Your task to perform on an android device: turn notification dots on Image 0: 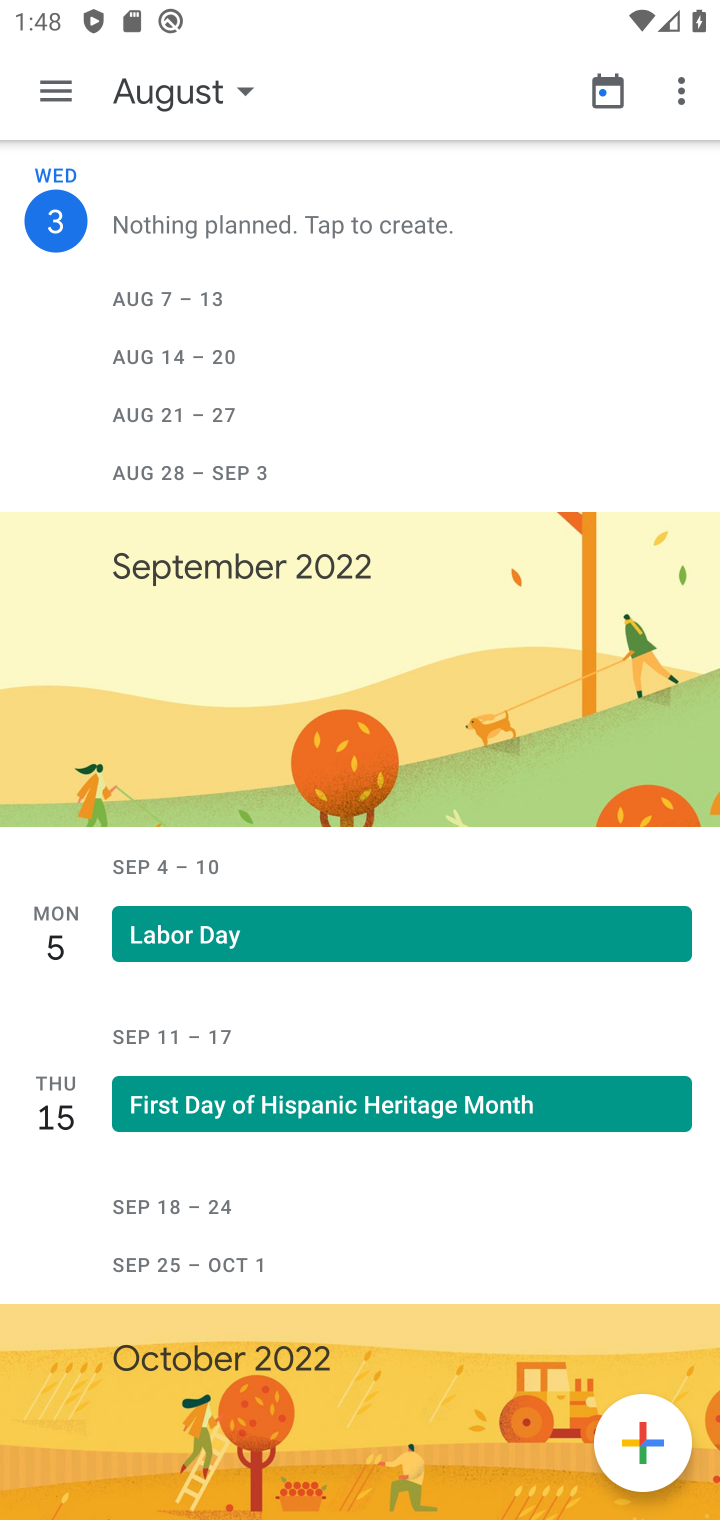
Step 0: press back button
Your task to perform on an android device: turn notification dots on Image 1: 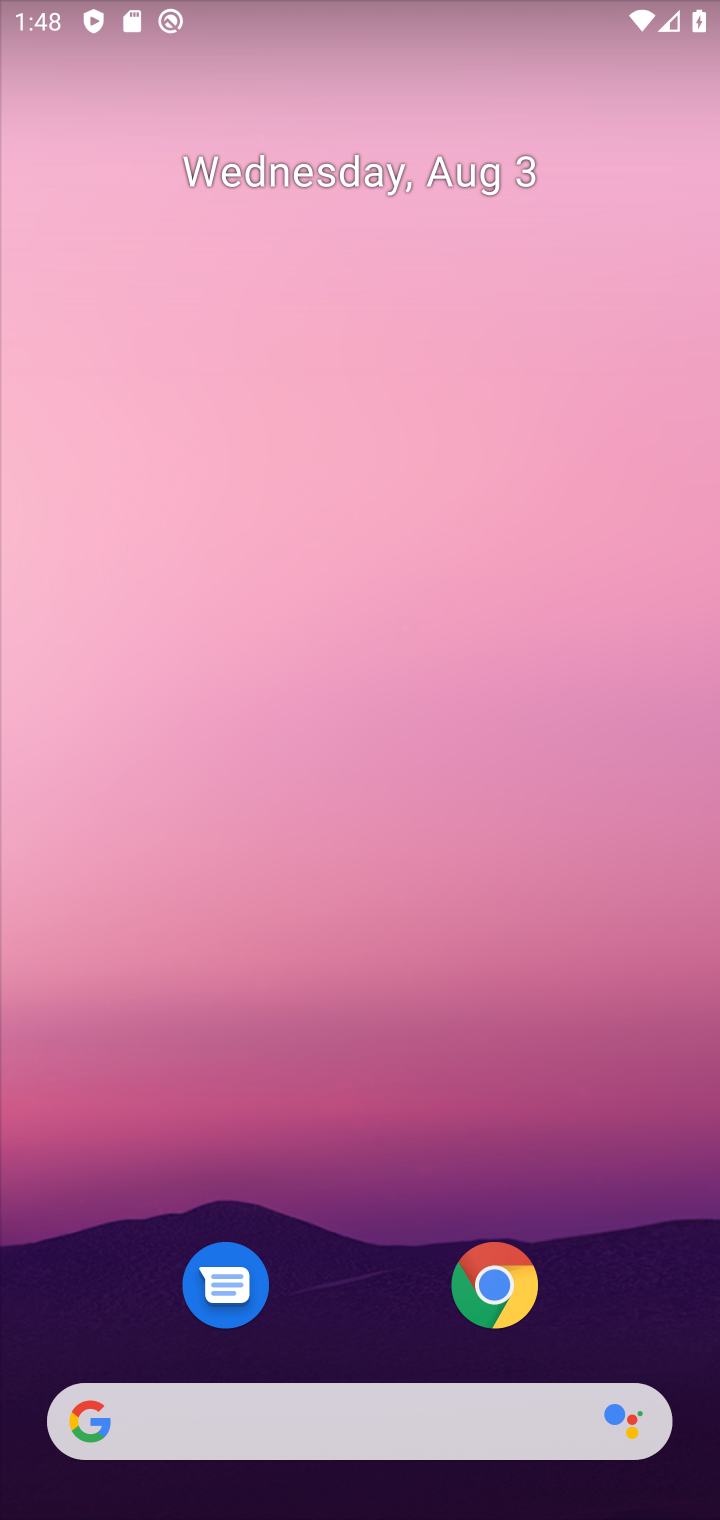
Step 1: drag from (331, 1350) to (419, 537)
Your task to perform on an android device: turn notification dots on Image 2: 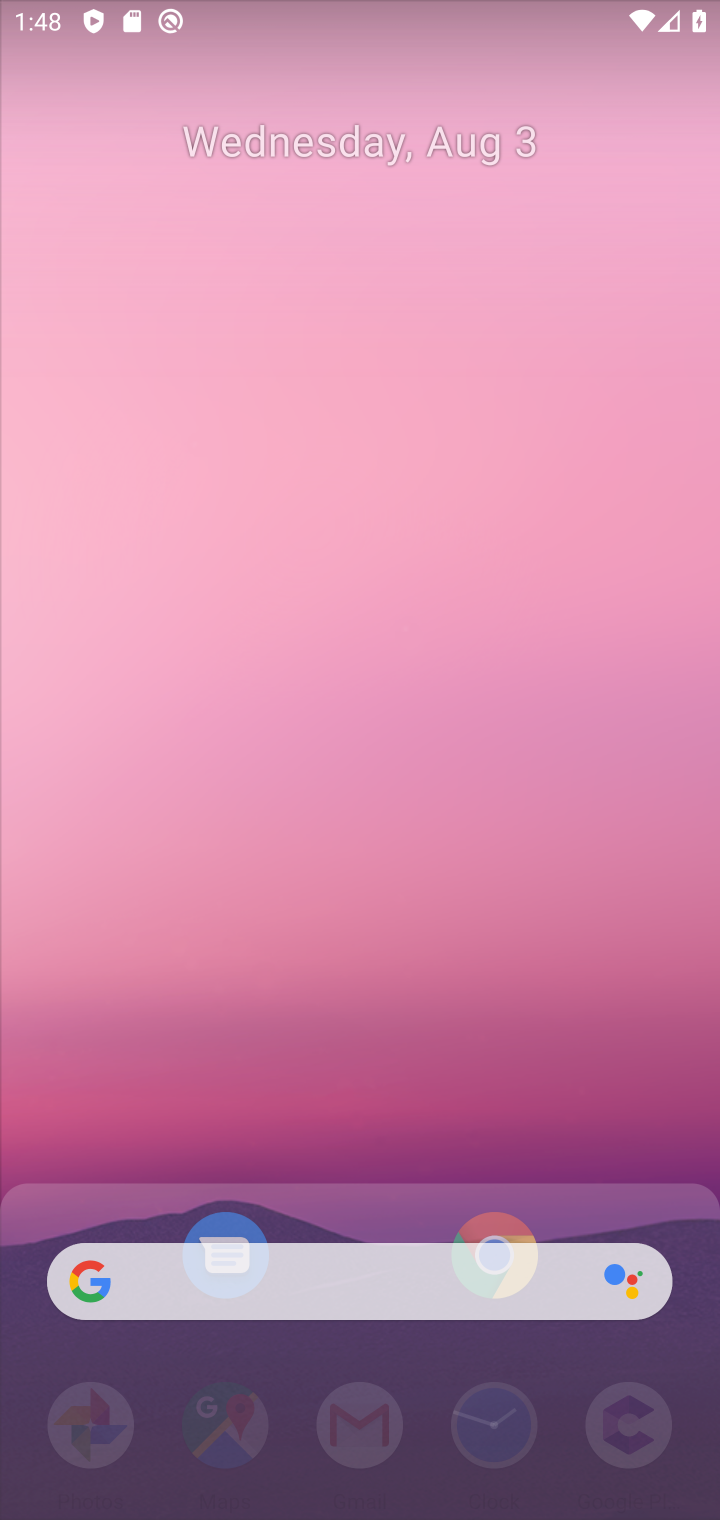
Step 2: click (331, 232)
Your task to perform on an android device: turn notification dots on Image 3: 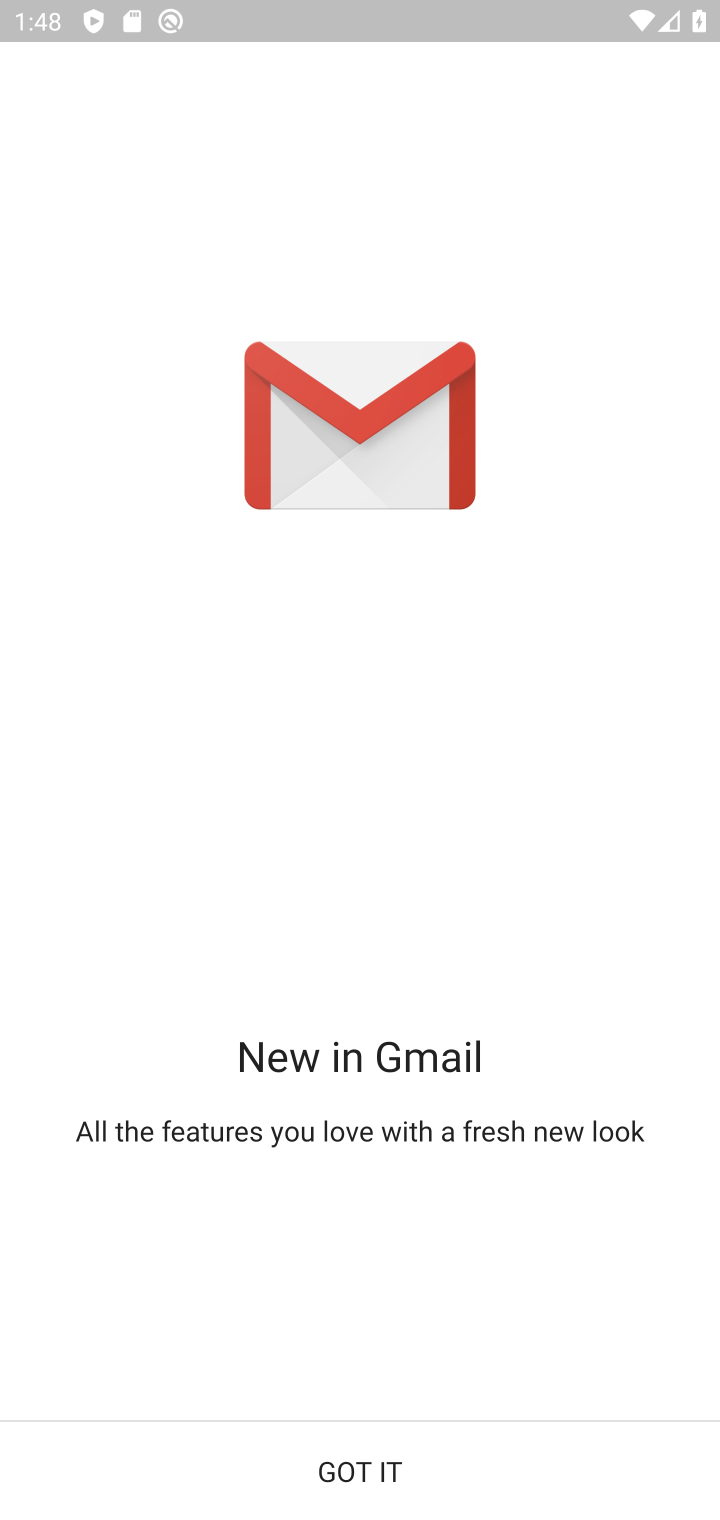
Step 3: press back button
Your task to perform on an android device: turn notification dots on Image 4: 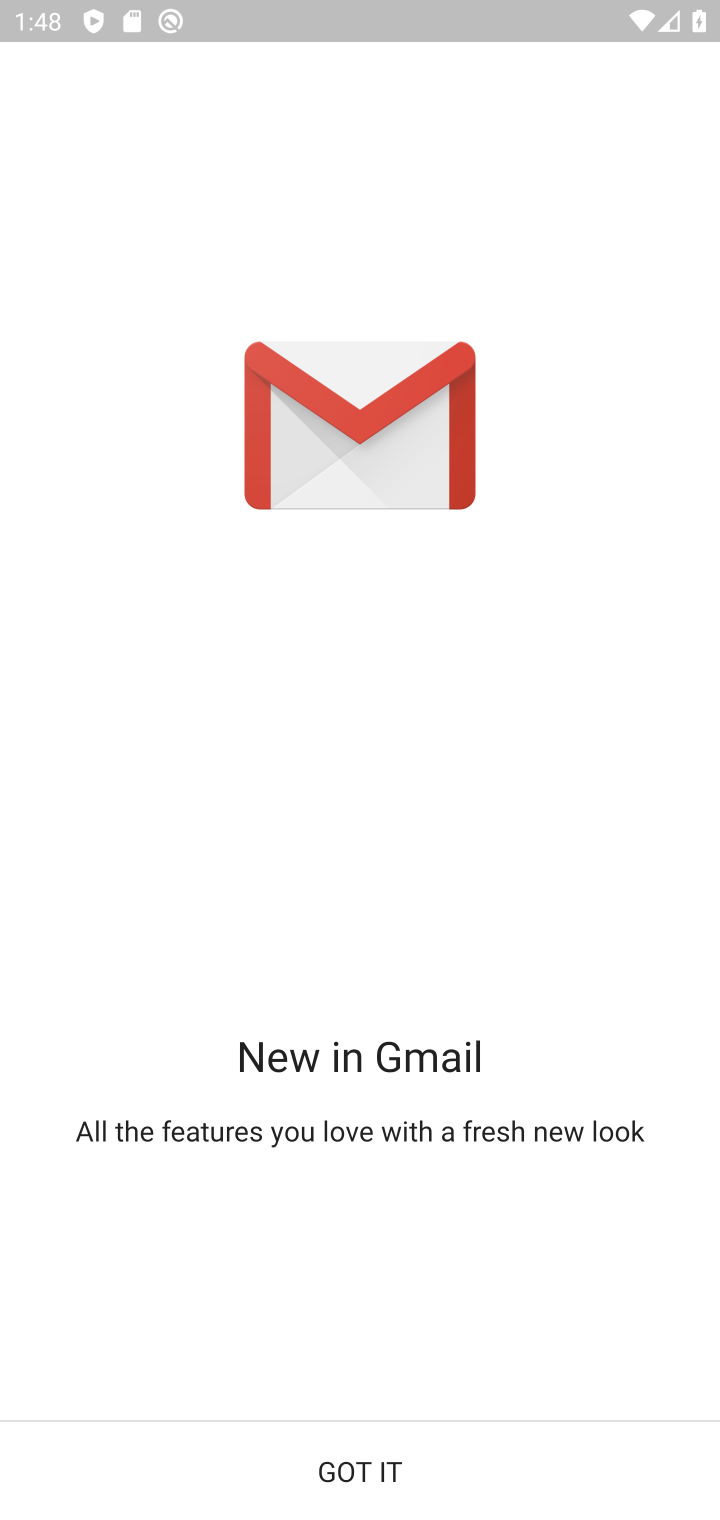
Step 4: press back button
Your task to perform on an android device: turn notification dots on Image 5: 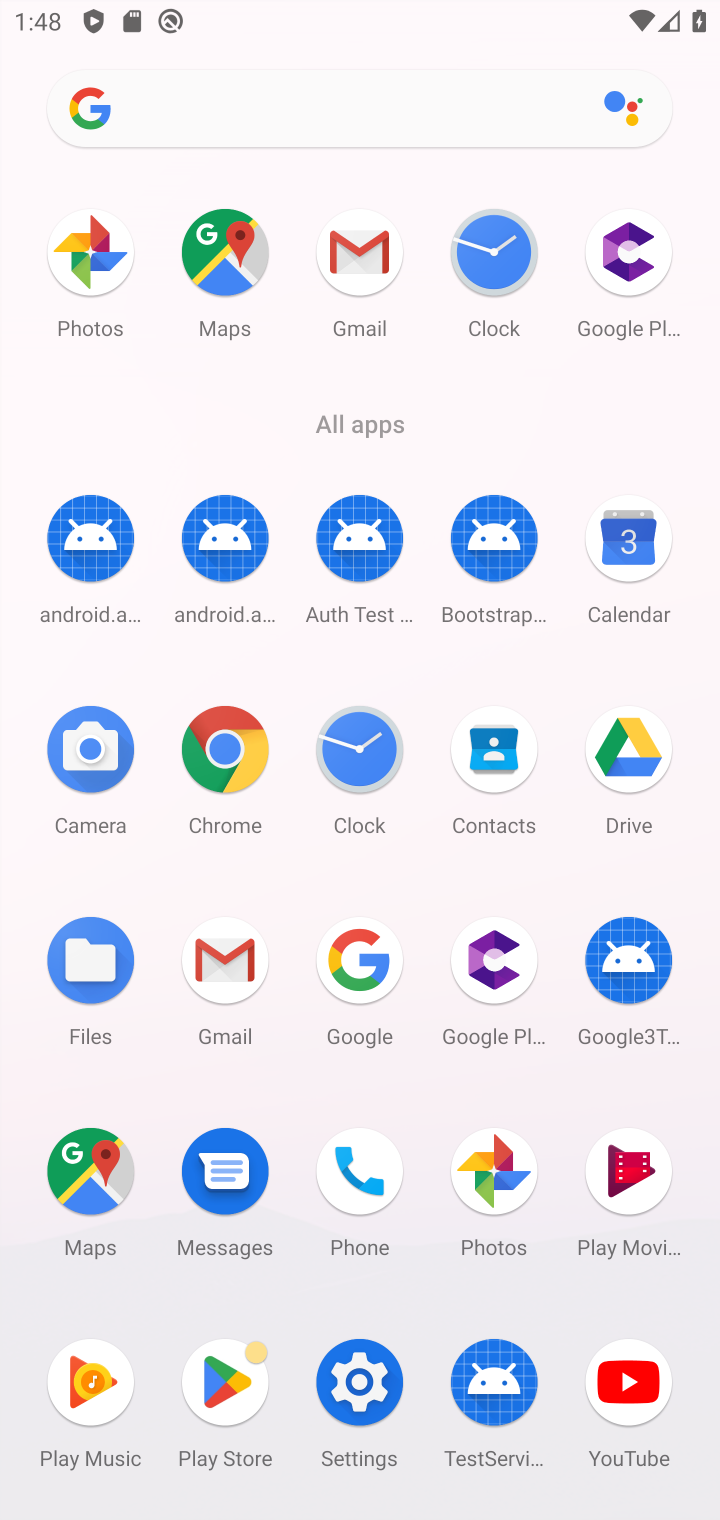
Step 5: press back button
Your task to perform on an android device: turn notification dots on Image 6: 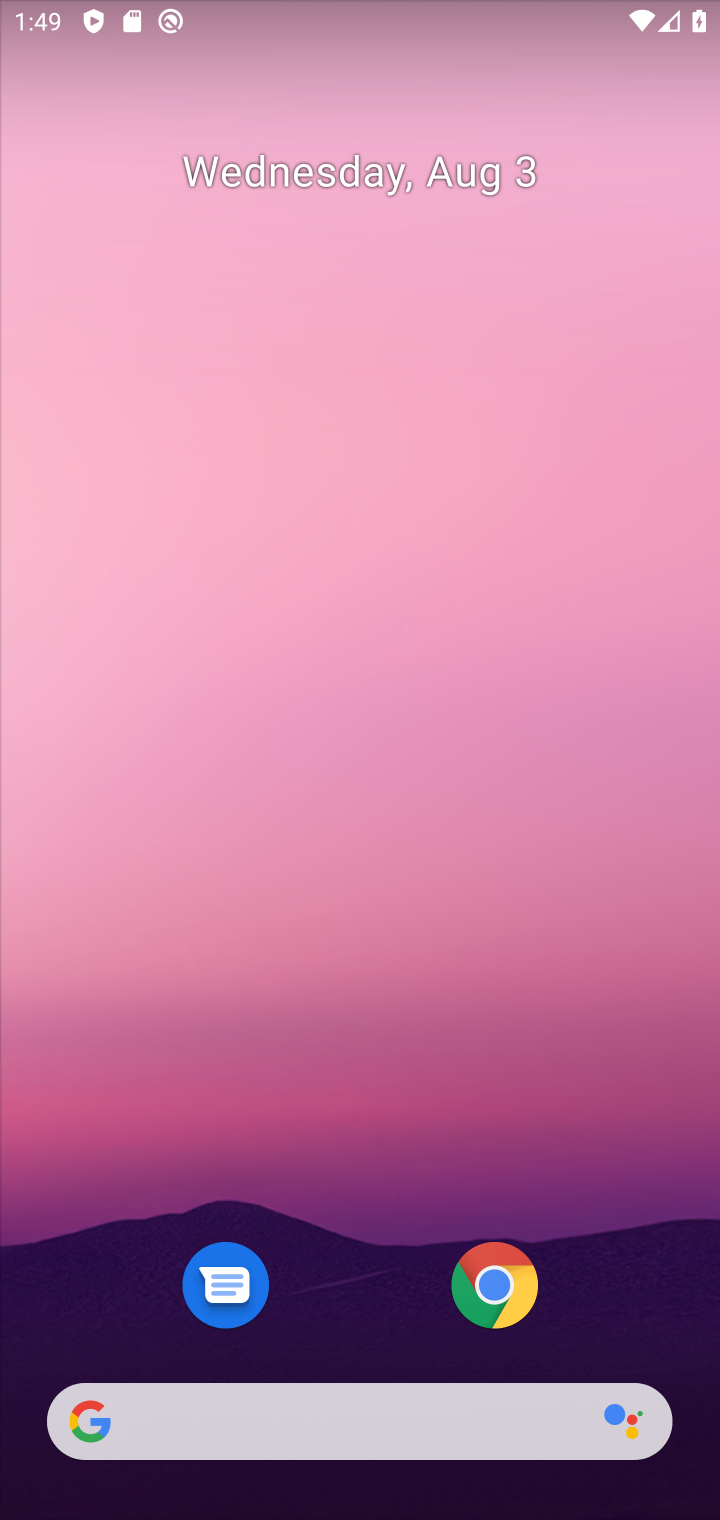
Step 6: press back button
Your task to perform on an android device: turn notification dots on Image 7: 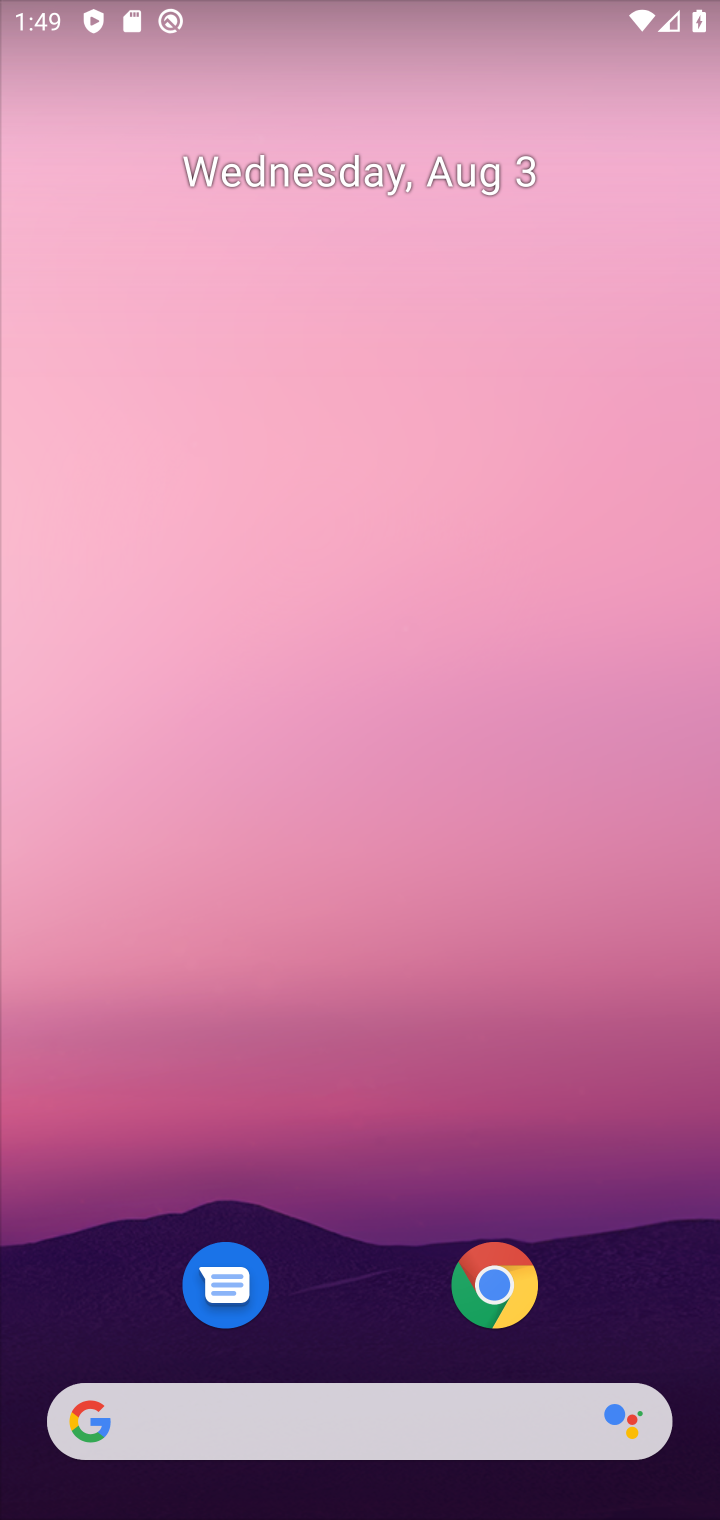
Step 7: drag from (408, 1365) to (306, 525)
Your task to perform on an android device: turn notification dots on Image 8: 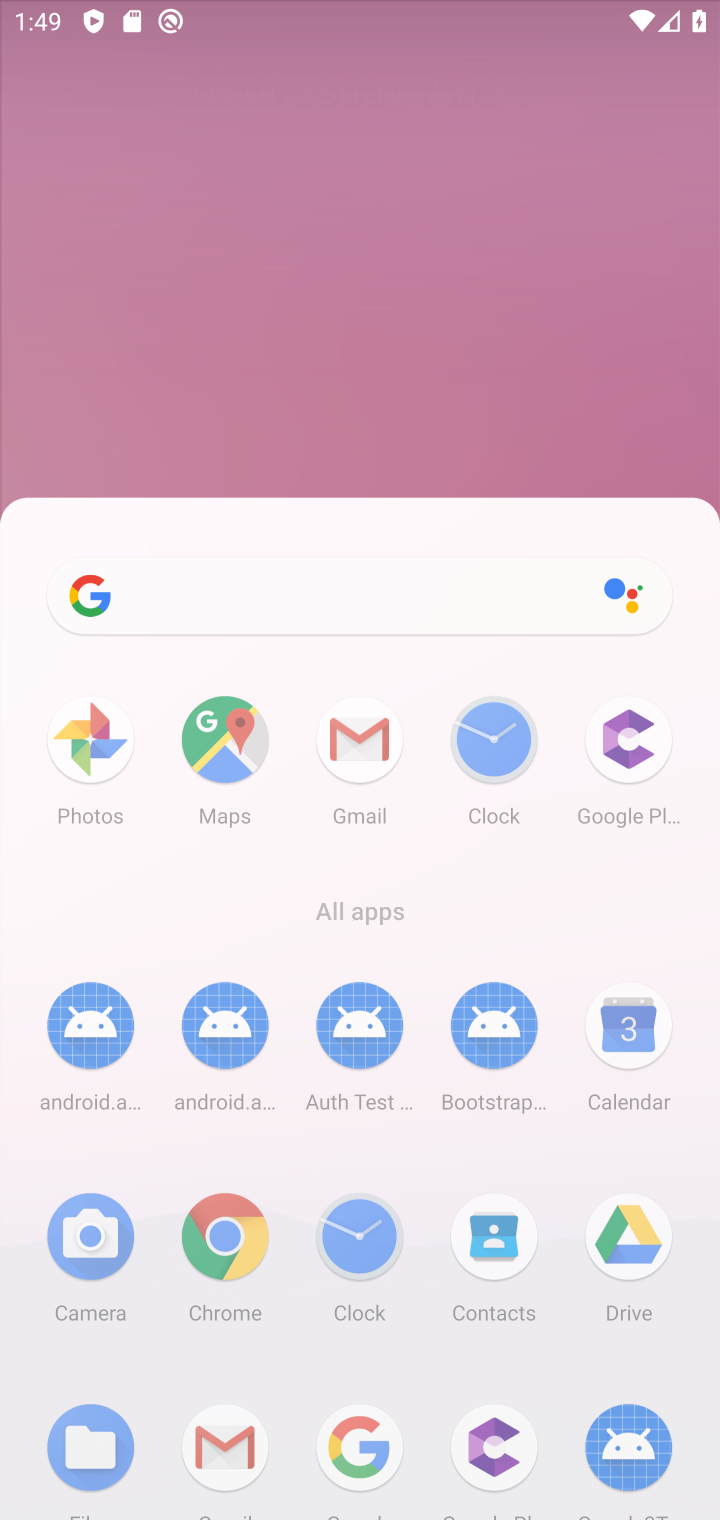
Step 8: drag from (353, 1327) to (210, 226)
Your task to perform on an android device: turn notification dots on Image 9: 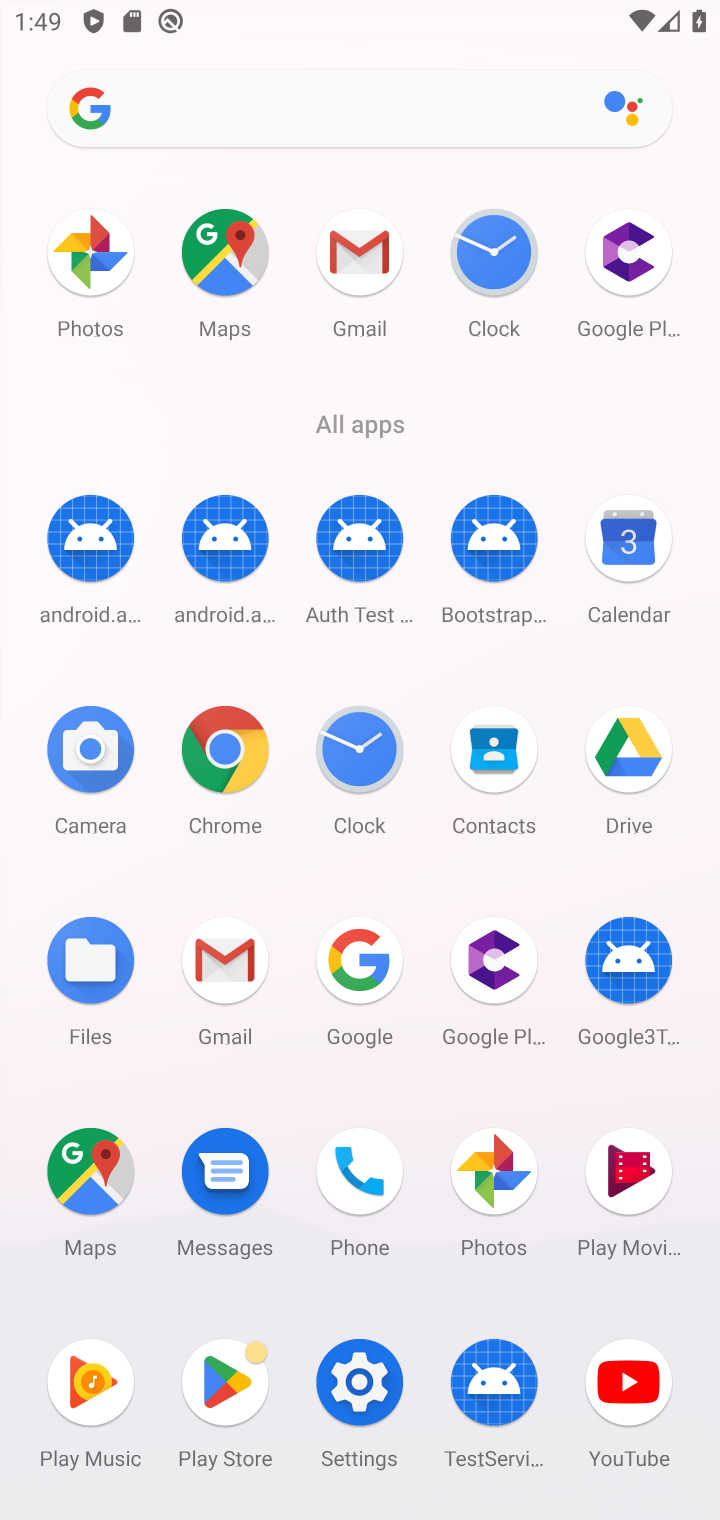
Step 9: drag from (281, 414) to (267, 210)
Your task to perform on an android device: turn notification dots on Image 10: 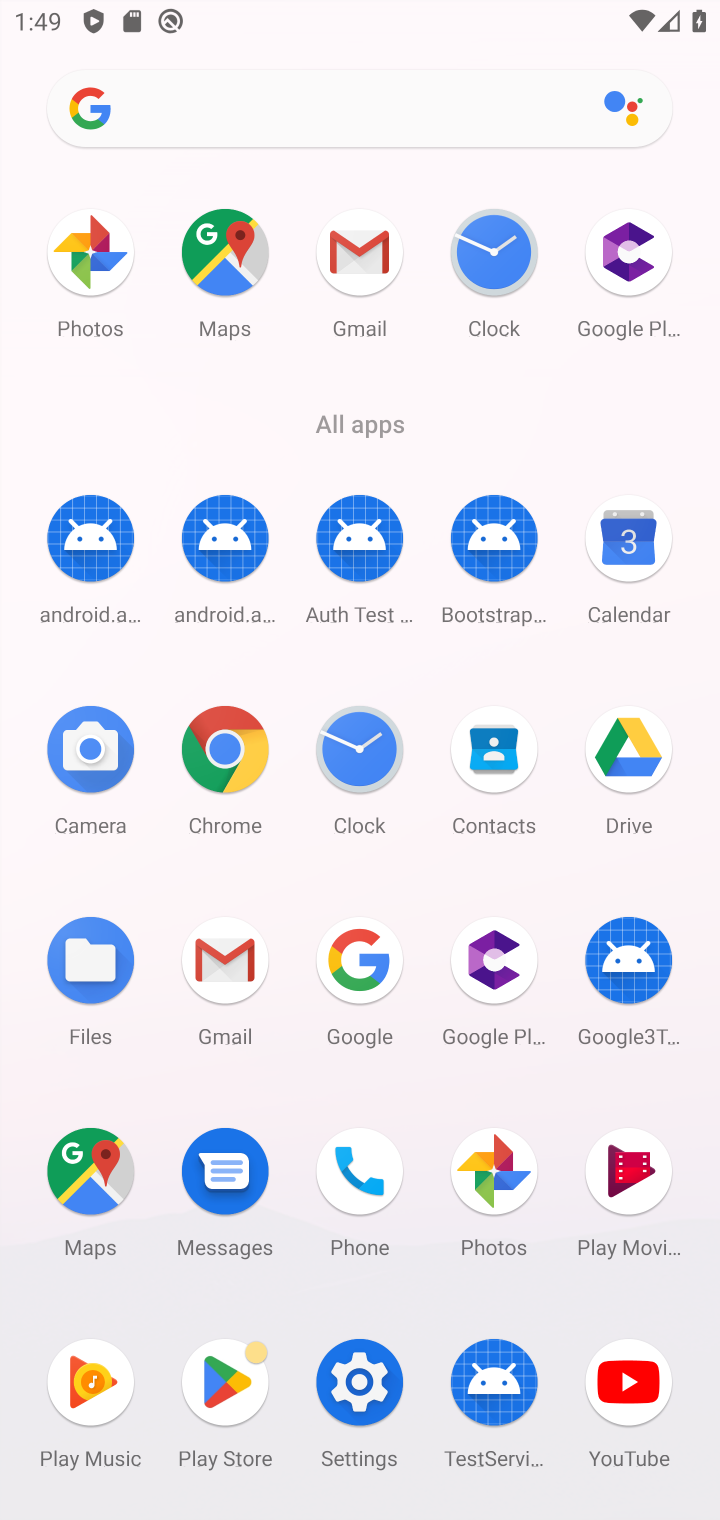
Step 10: click (351, 1380)
Your task to perform on an android device: turn notification dots on Image 11: 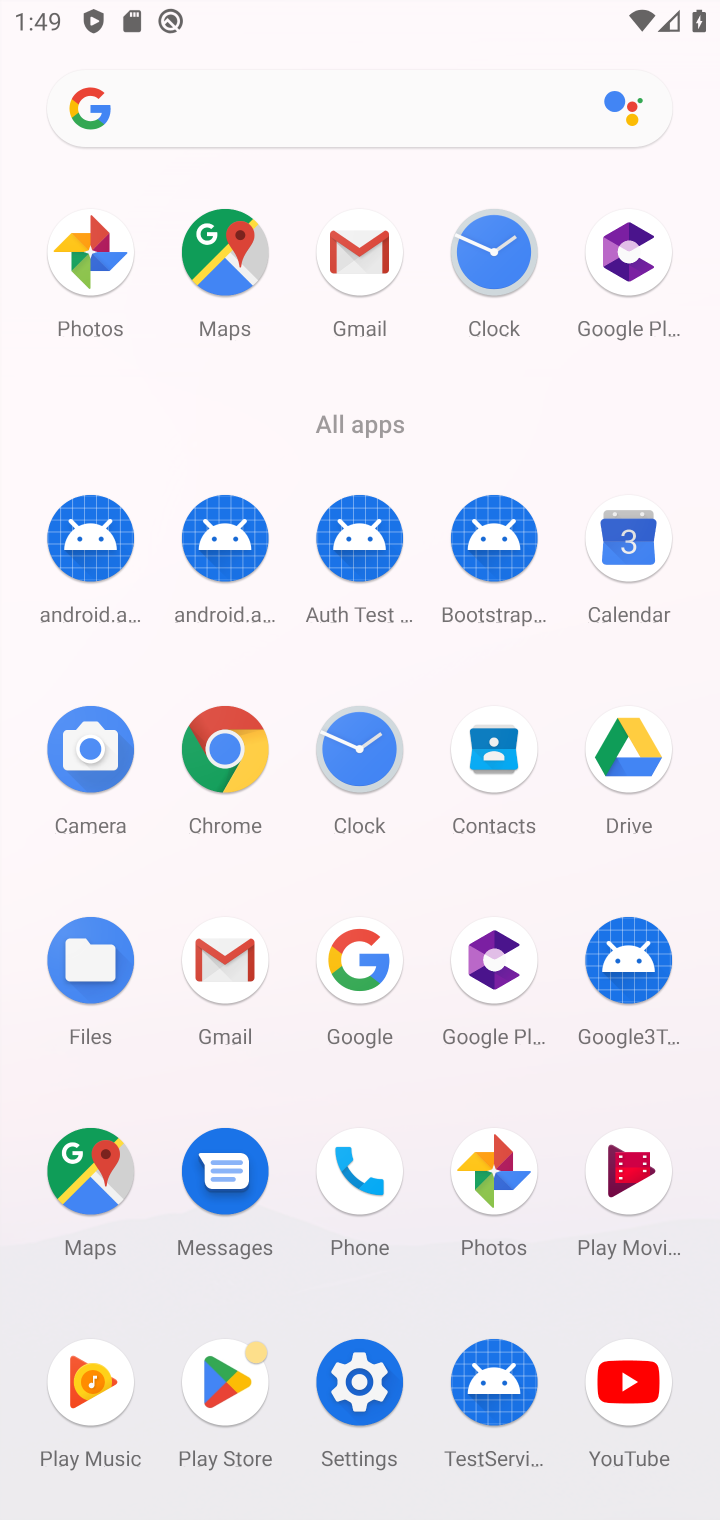
Step 11: click (349, 1388)
Your task to perform on an android device: turn notification dots on Image 12: 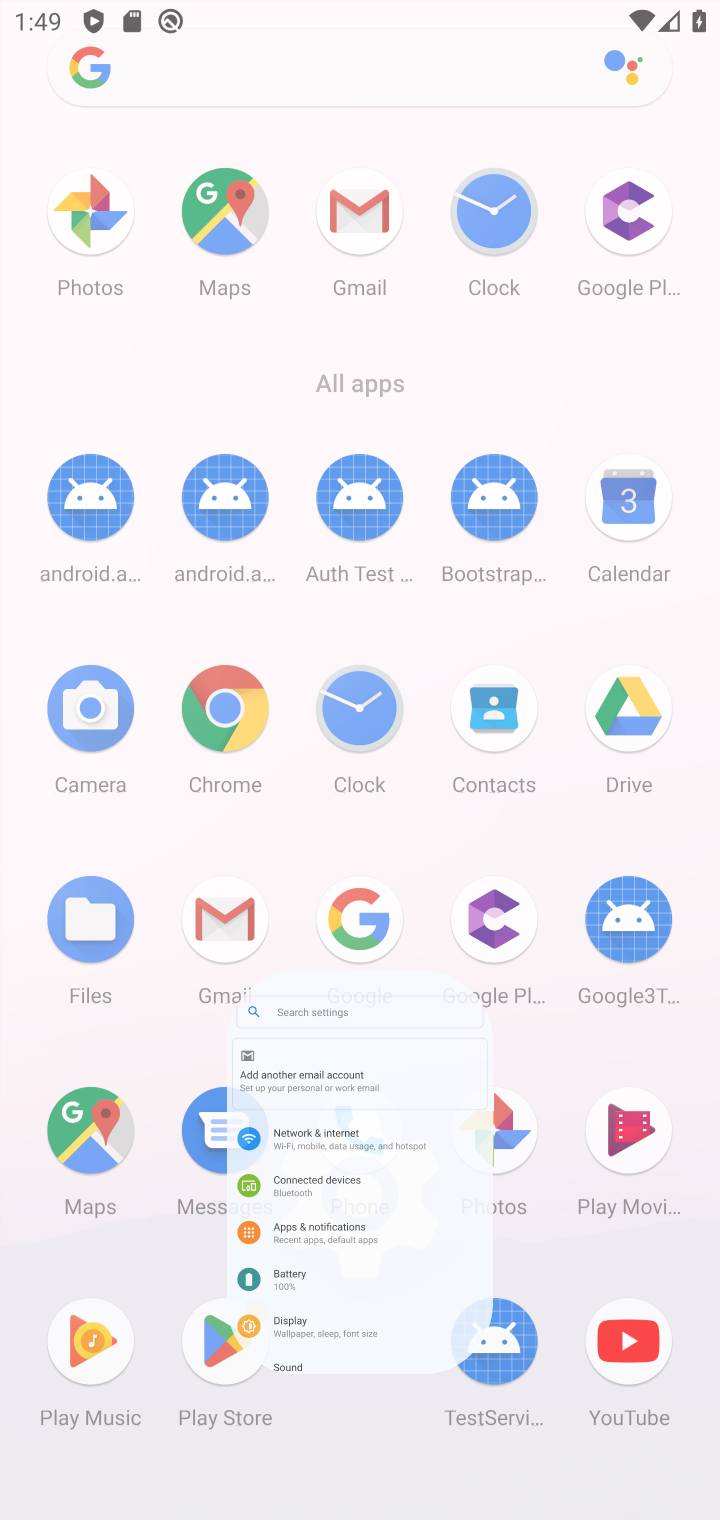
Step 12: click (356, 1387)
Your task to perform on an android device: turn notification dots on Image 13: 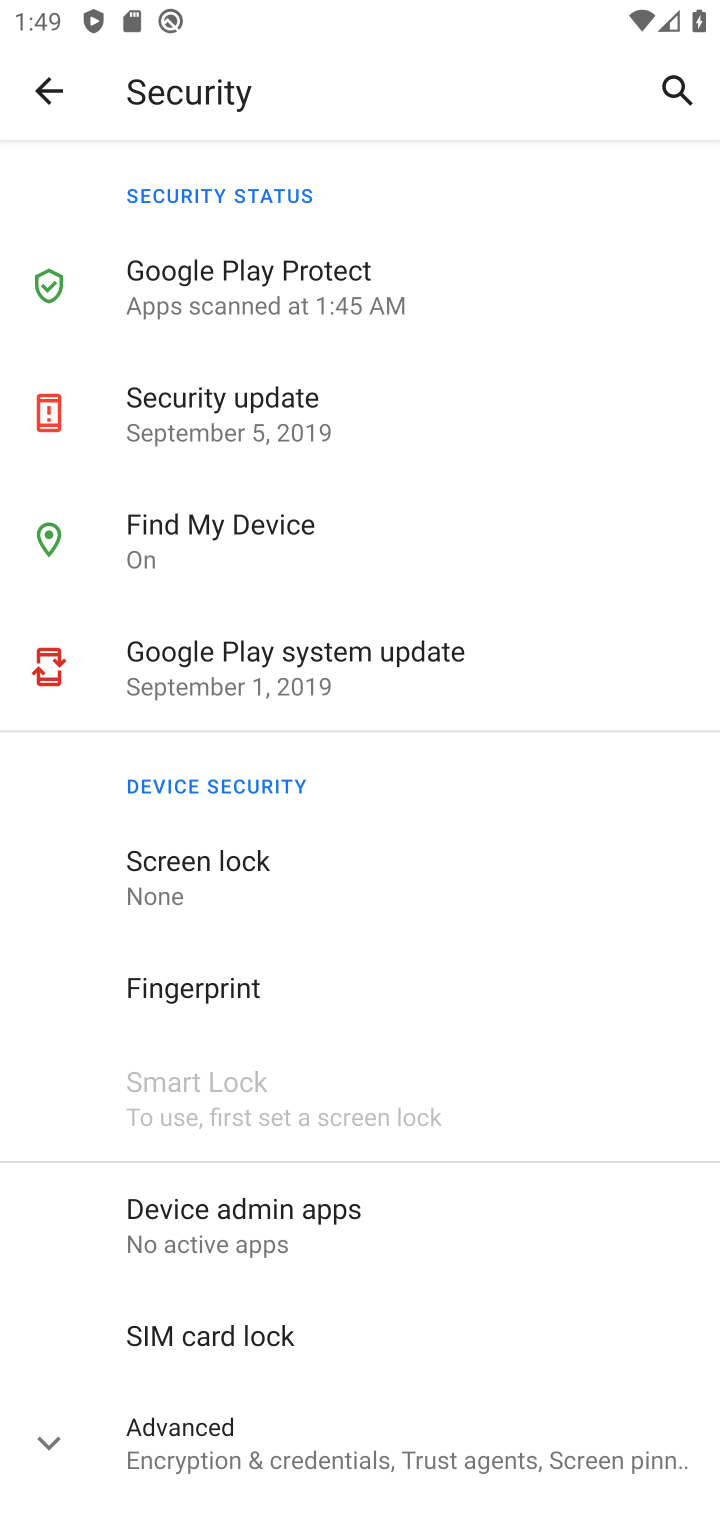
Step 13: click (43, 94)
Your task to perform on an android device: turn notification dots on Image 14: 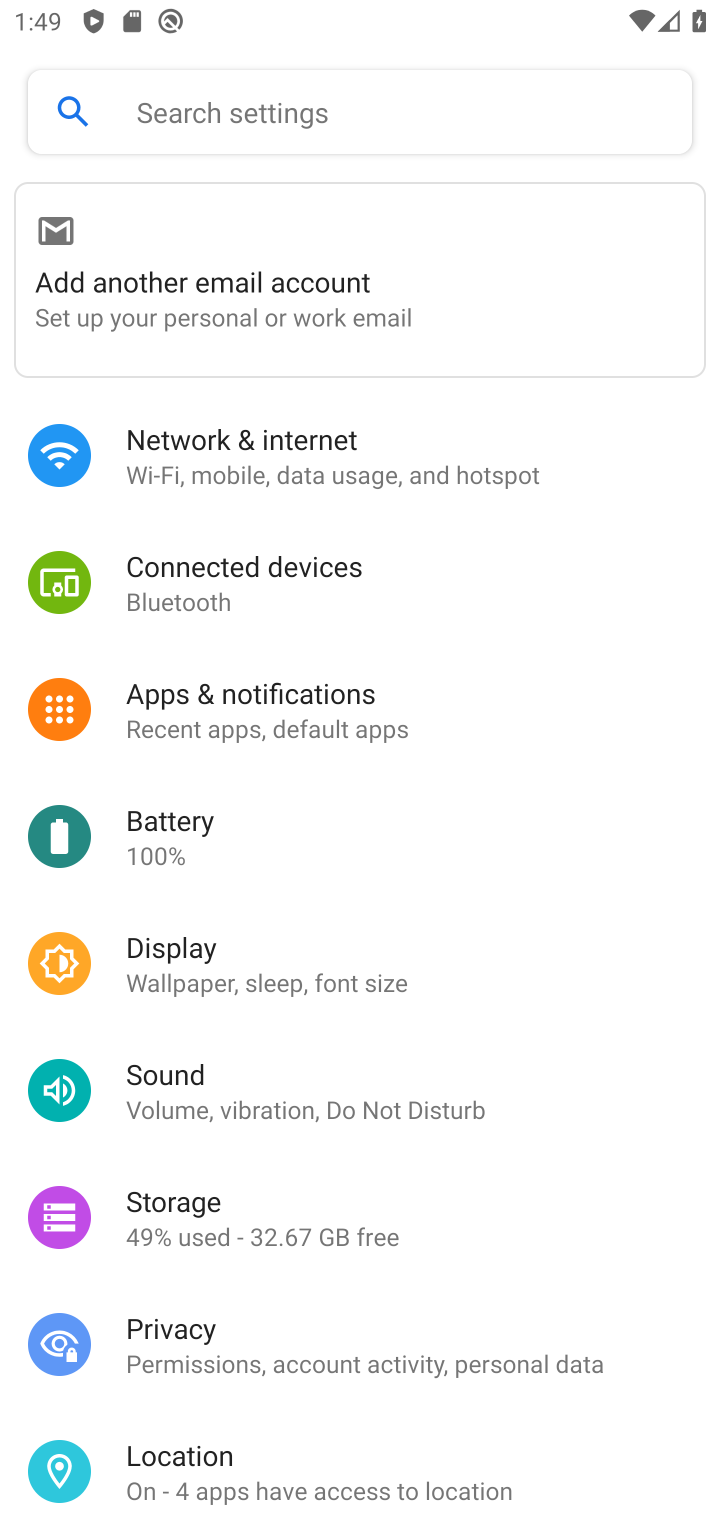
Step 14: drag from (221, 1199) to (138, 658)
Your task to perform on an android device: turn notification dots on Image 15: 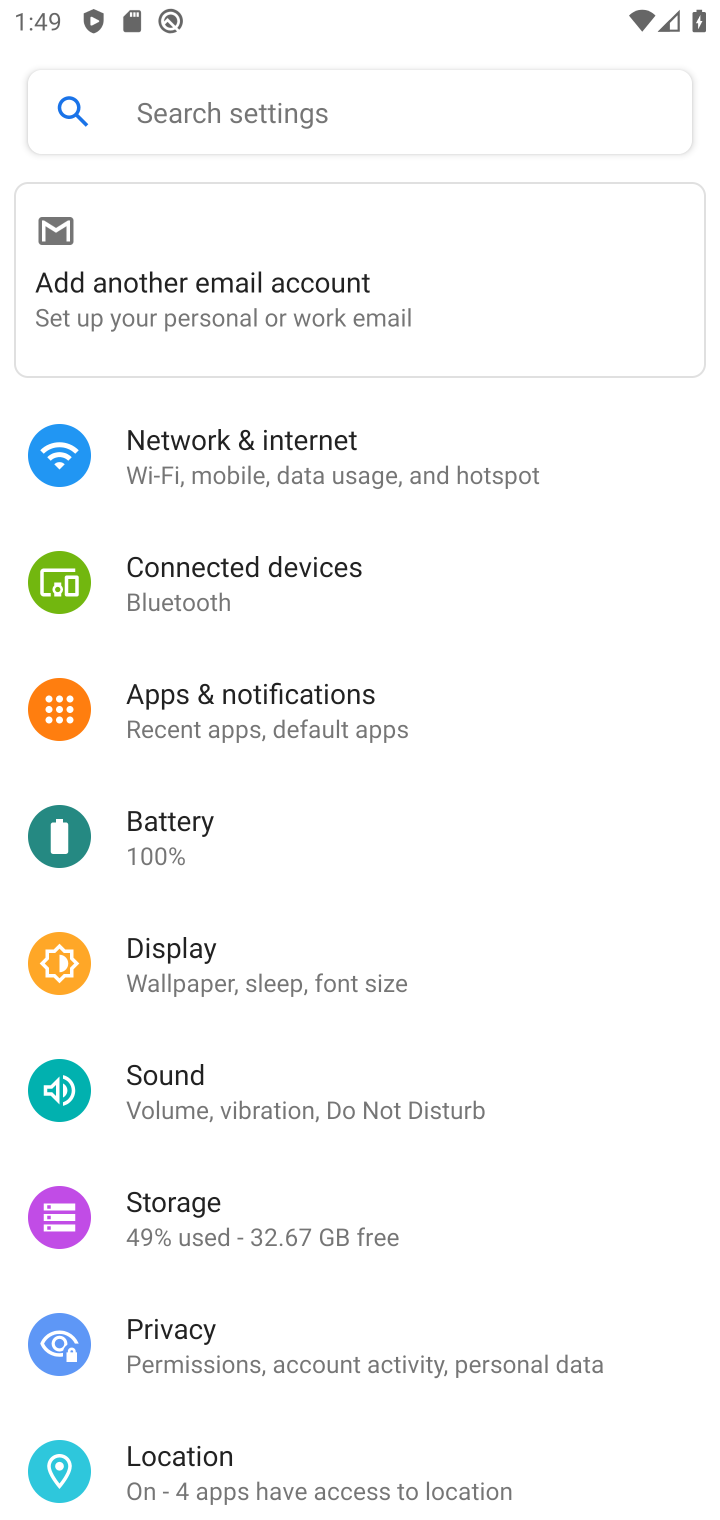
Step 15: drag from (260, 1015) to (422, 188)
Your task to perform on an android device: turn notification dots on Image 16: 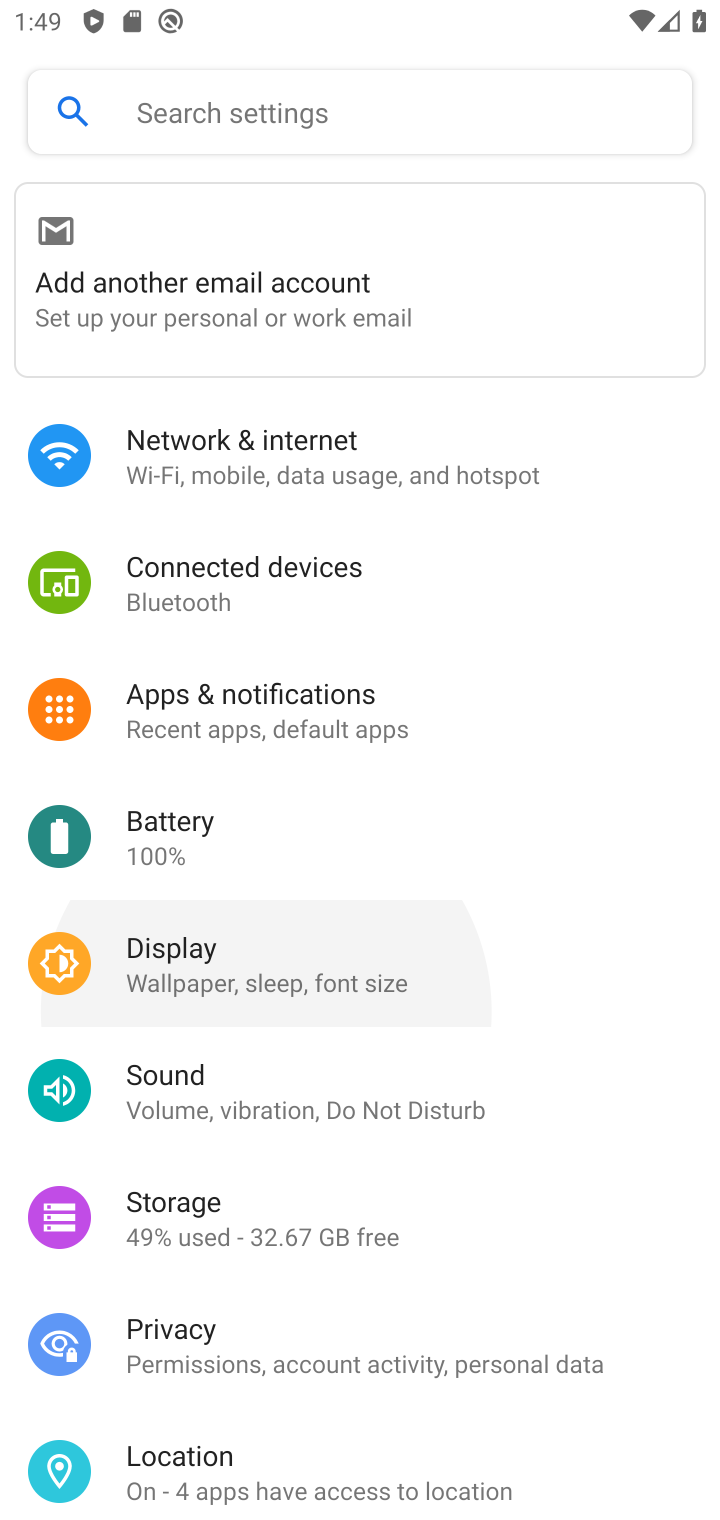
Step 16: drag from (390, 898) to (278, 506)
Your task to perform on an android device: turn notification dots on Image 17: 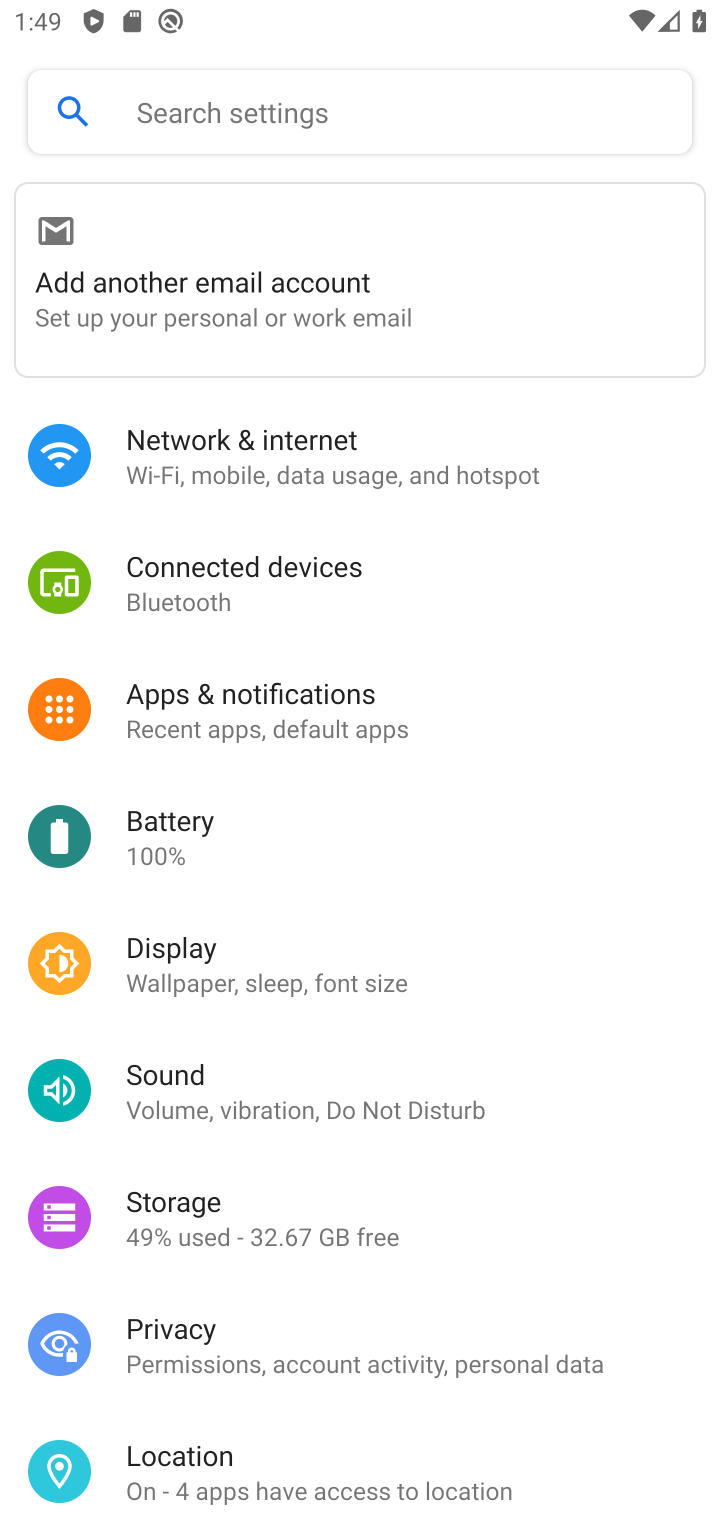
Step 17: click (146, 223)
Your task to perform on an android device: turn notification dots on Image 18: 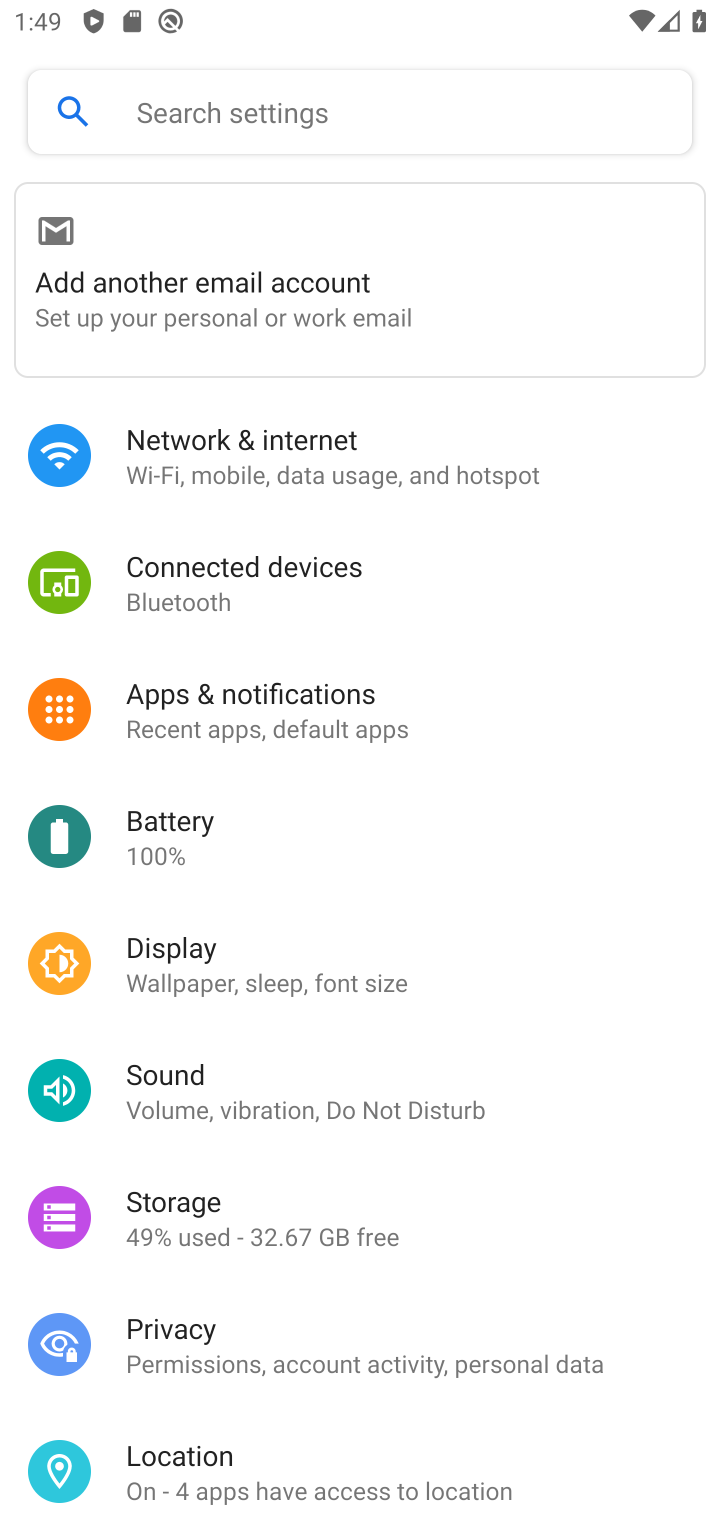
Step 18: click (120, 743)
Your task to perform on an android device: turn notification dots on Image 19: 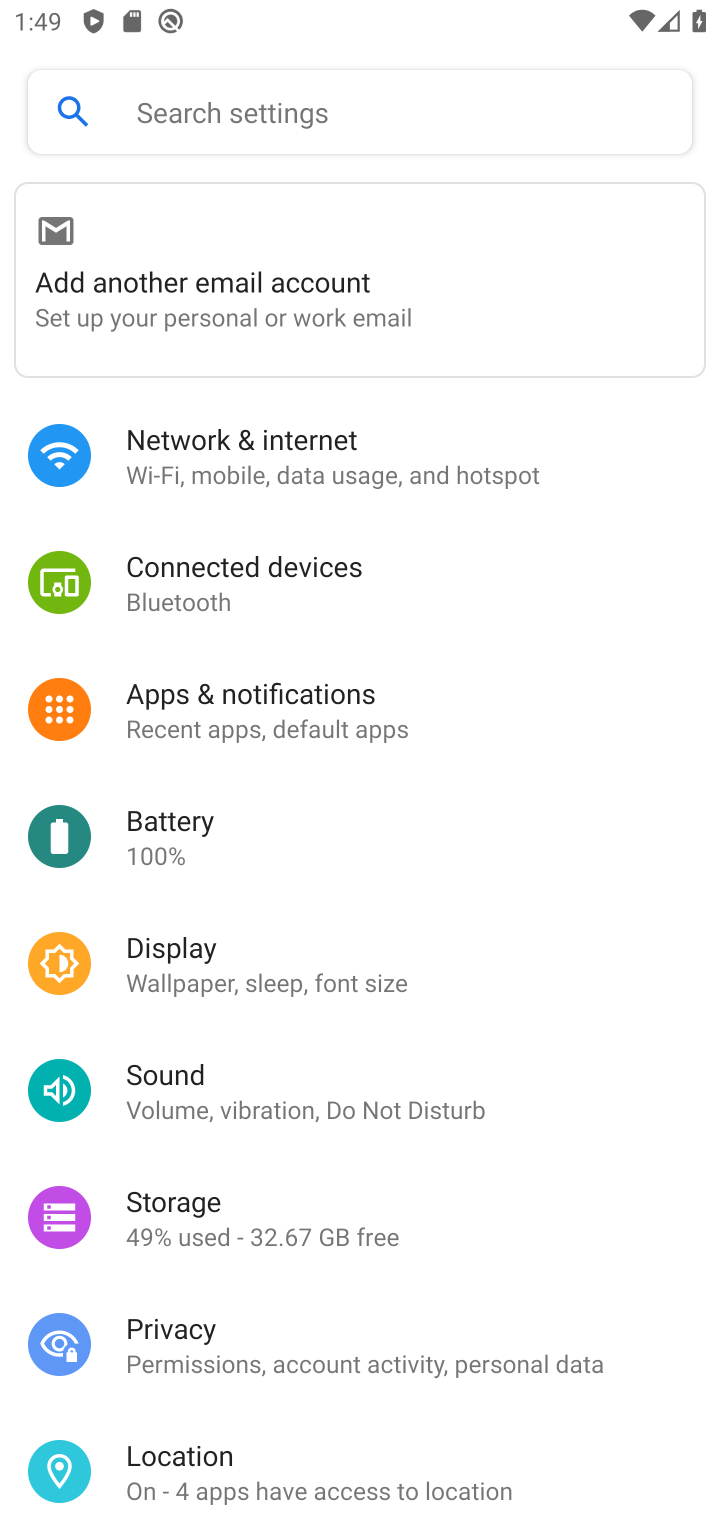
Step 19: drag from (192, 1146) to (0, 341)
Your task to perform on an android device: turn notification dots on Image 20: 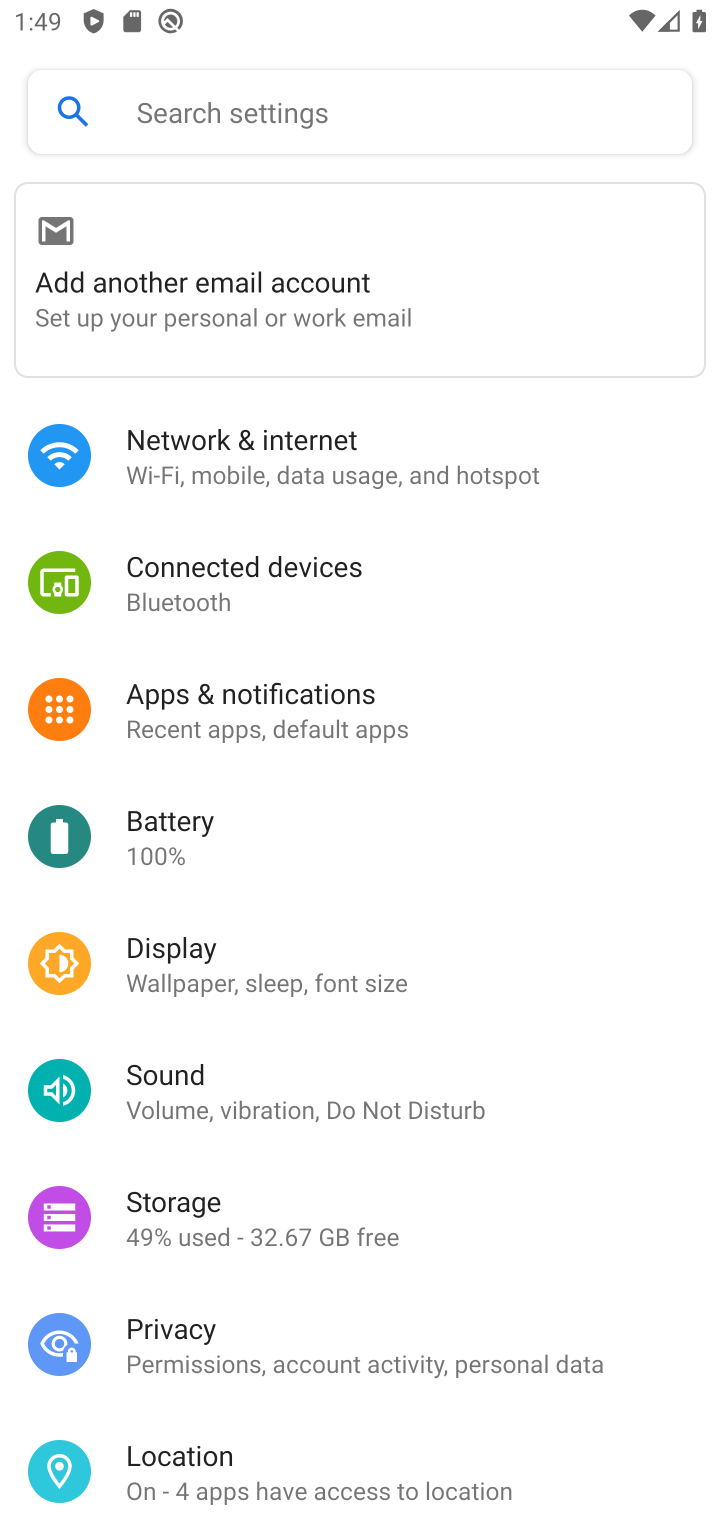
Step 20: drag from (219, 1244) to (132, 607)
Your task to perform on an android device: turn notification dots on Image 21: 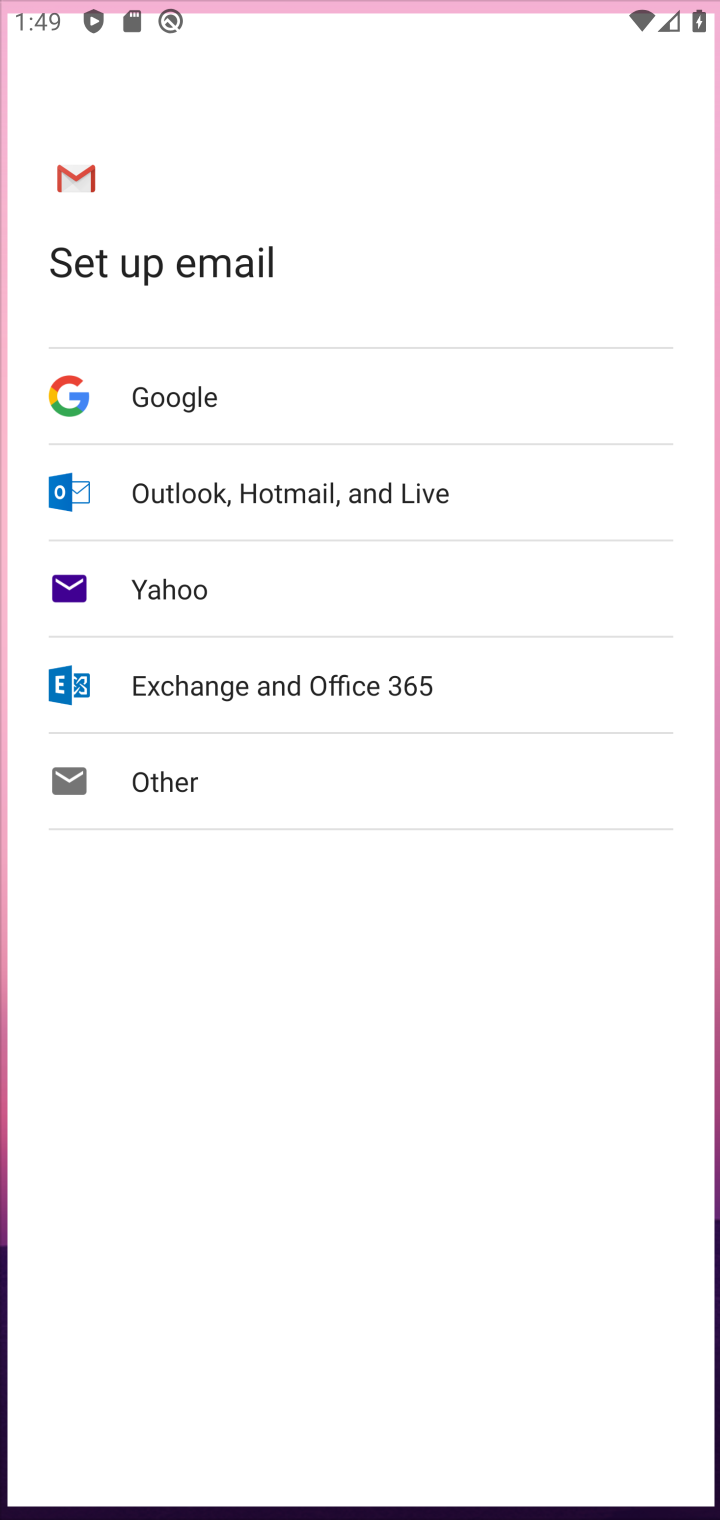
Step 21: drag from (227, 480) to (206, 355)
Your task to perform on an android device: turn notification dots on Image 22: 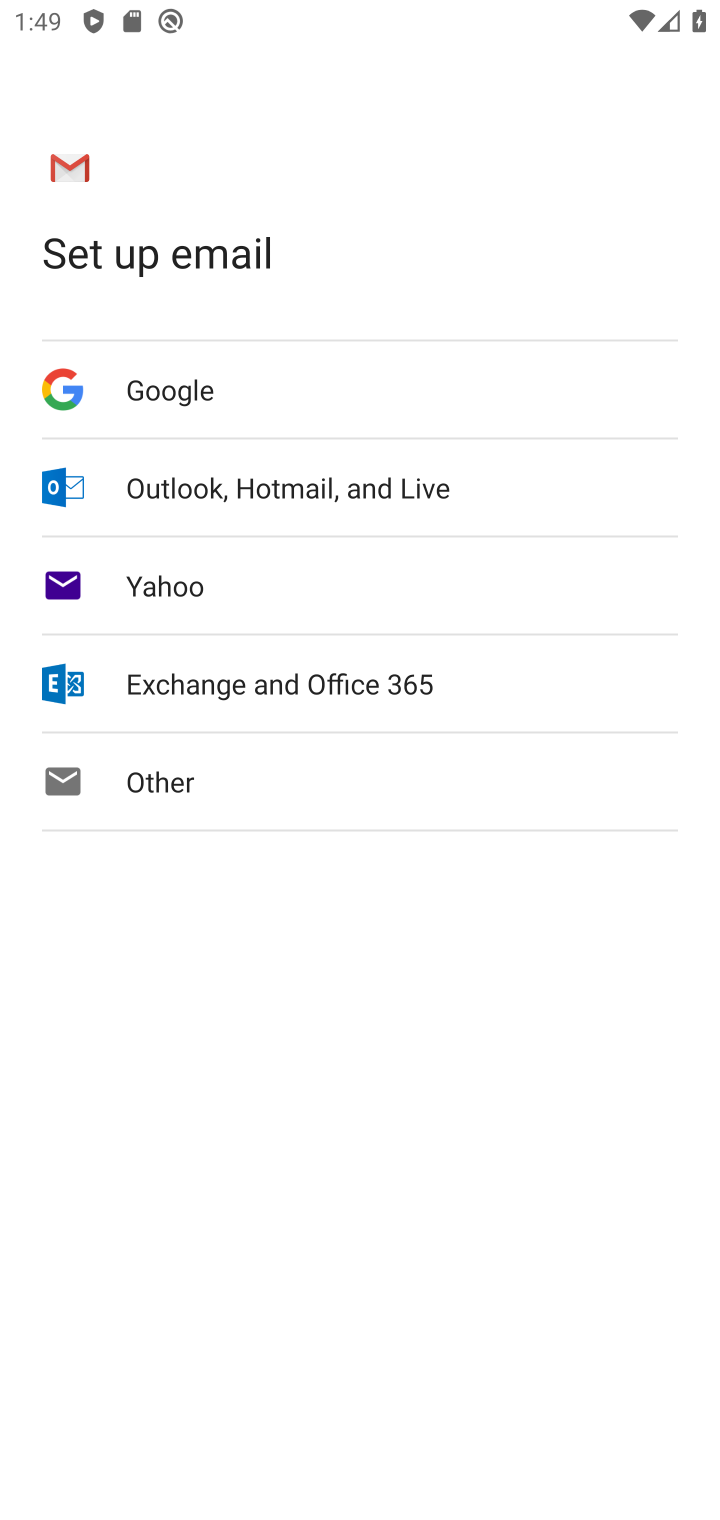
Step 22: press back button
Your task to perform on an android device: turn notification dots on Image 23: 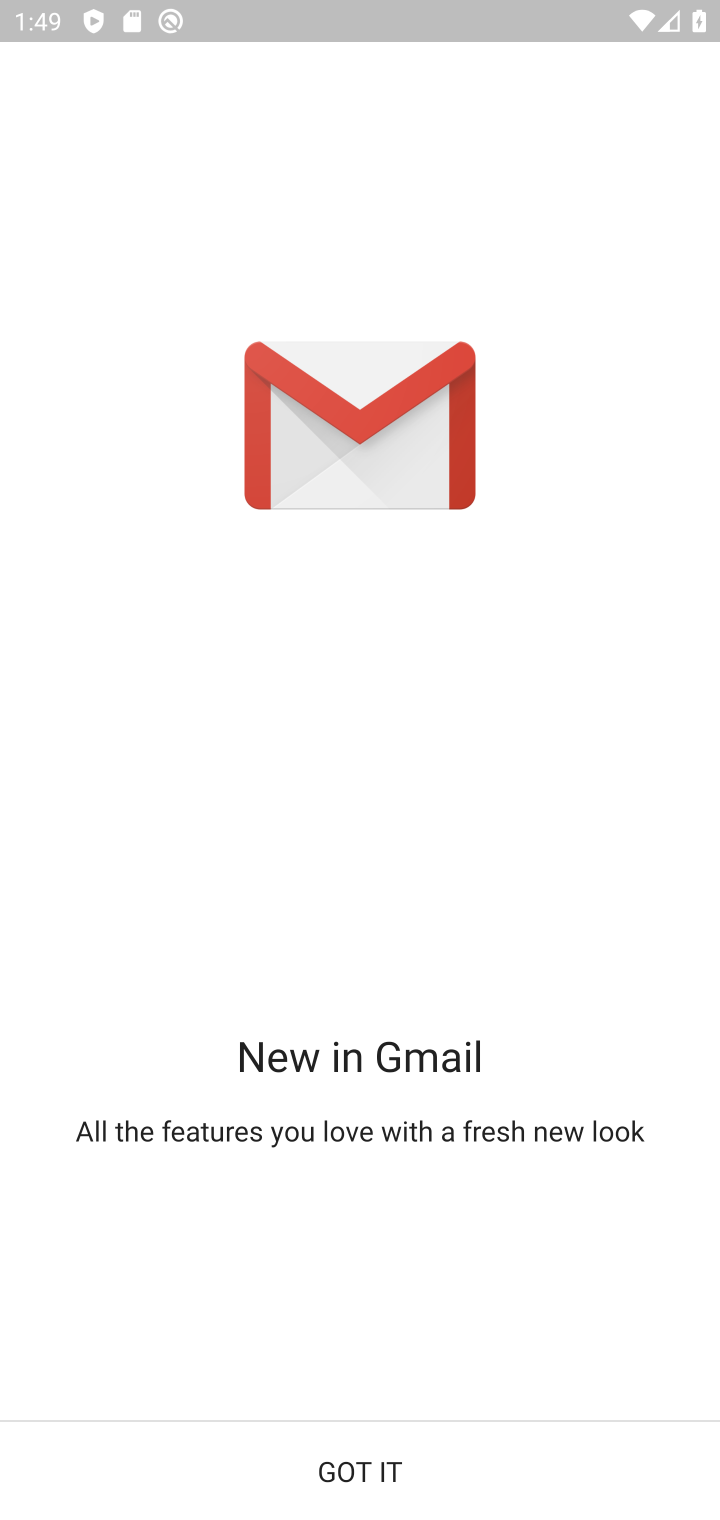
Step 23: click (337, 1484)
Your task to perform on an android device: turn notification dots on Image 24: 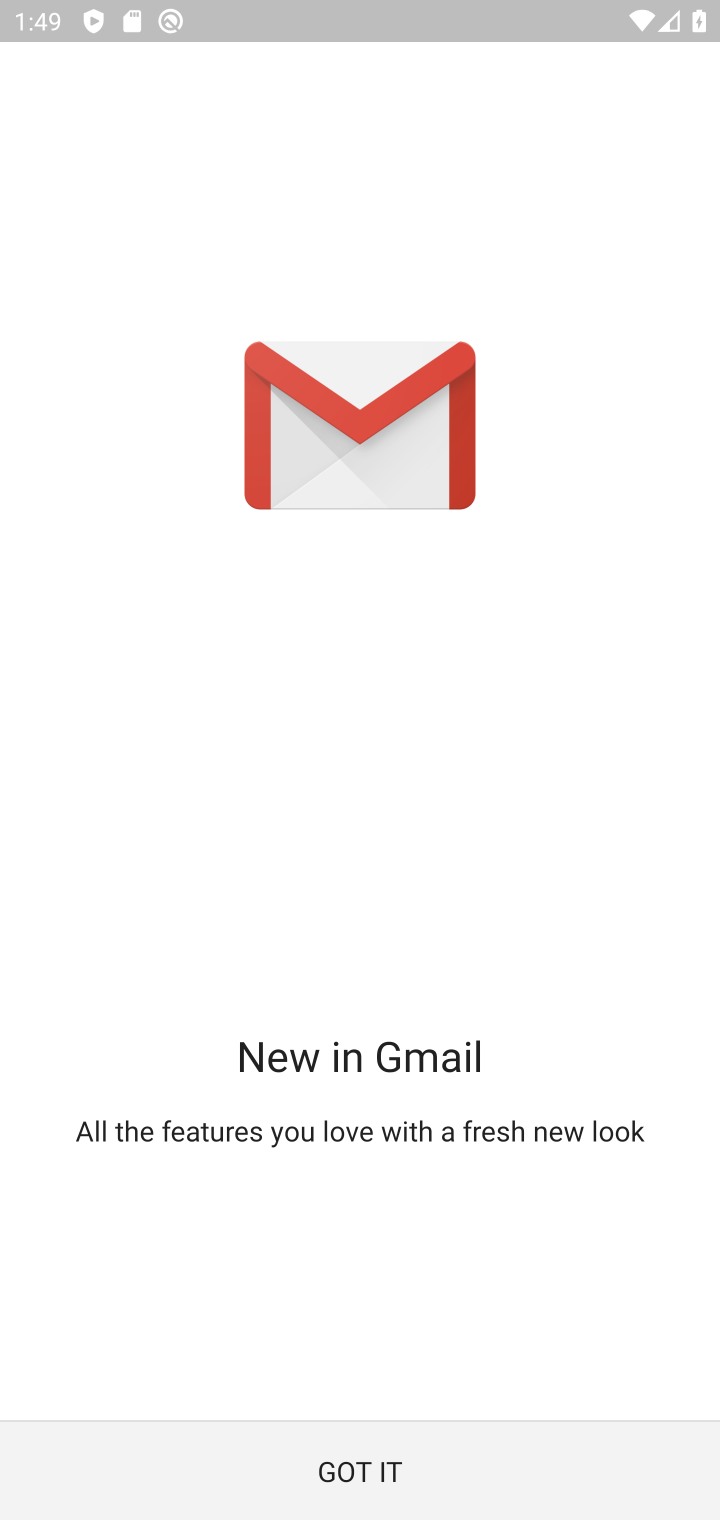
Step 24: press back button
Your task to perform on an android device: turn notification dots on Image 25: 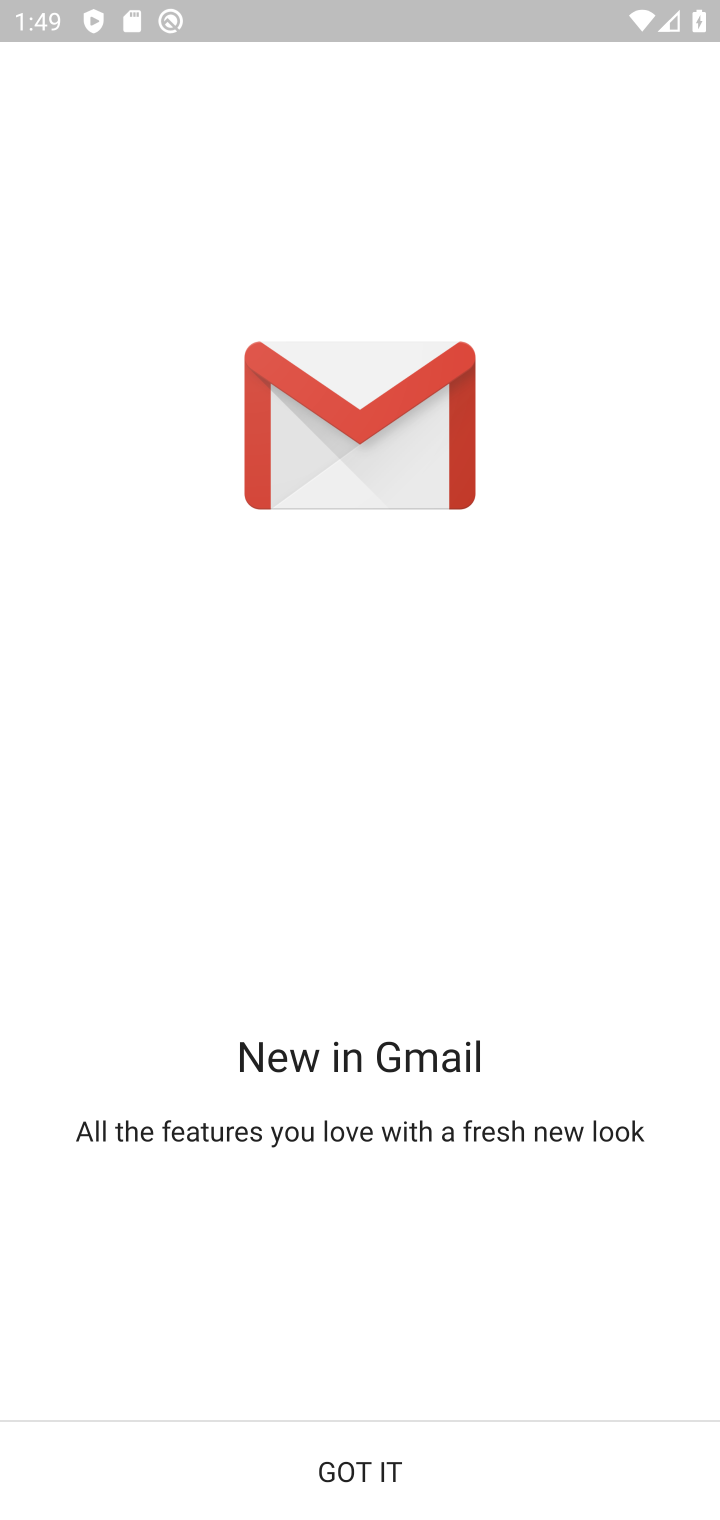
Step 25: press home button
Your task to perform on an android device: turn notification dots on Image 26: 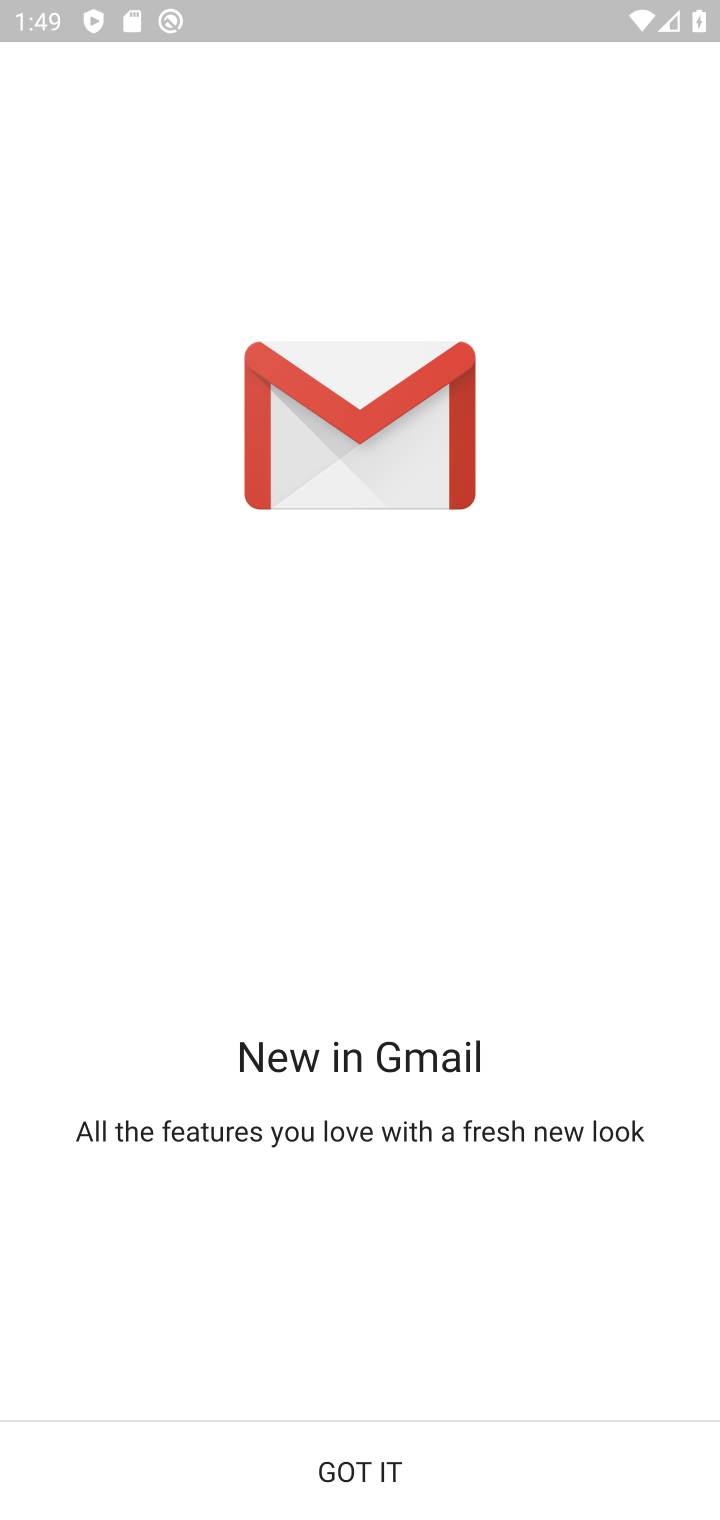
Step 26: press back button
Your task to perform on an android device: turn notification dots on Image 27: 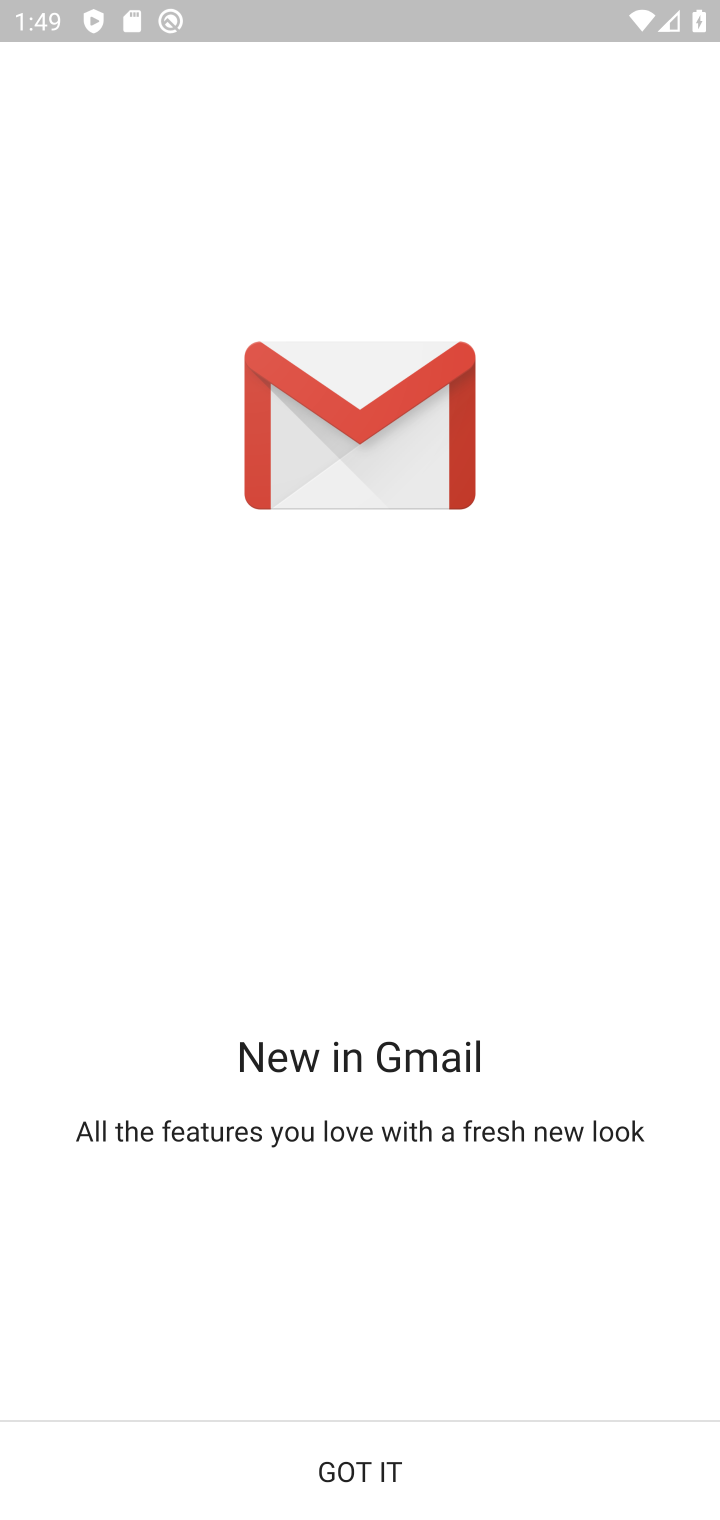
Step 27: drag from (394, 1456) to (429, 51)
Your task to perform on an android device: turn notification dots on Image 28: 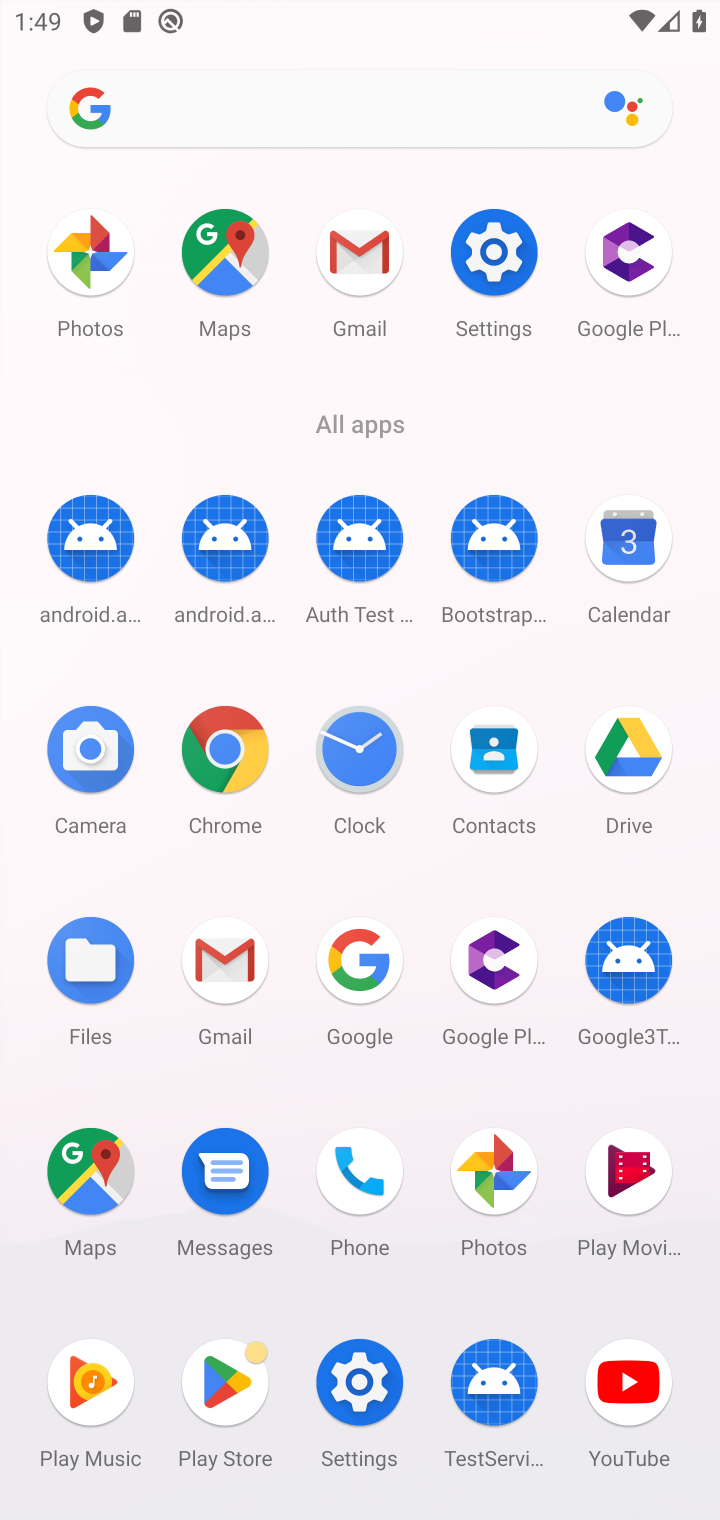
Step 28: click (491, 268)
Your task to perform on an android device: turn notification dots on Image 29: 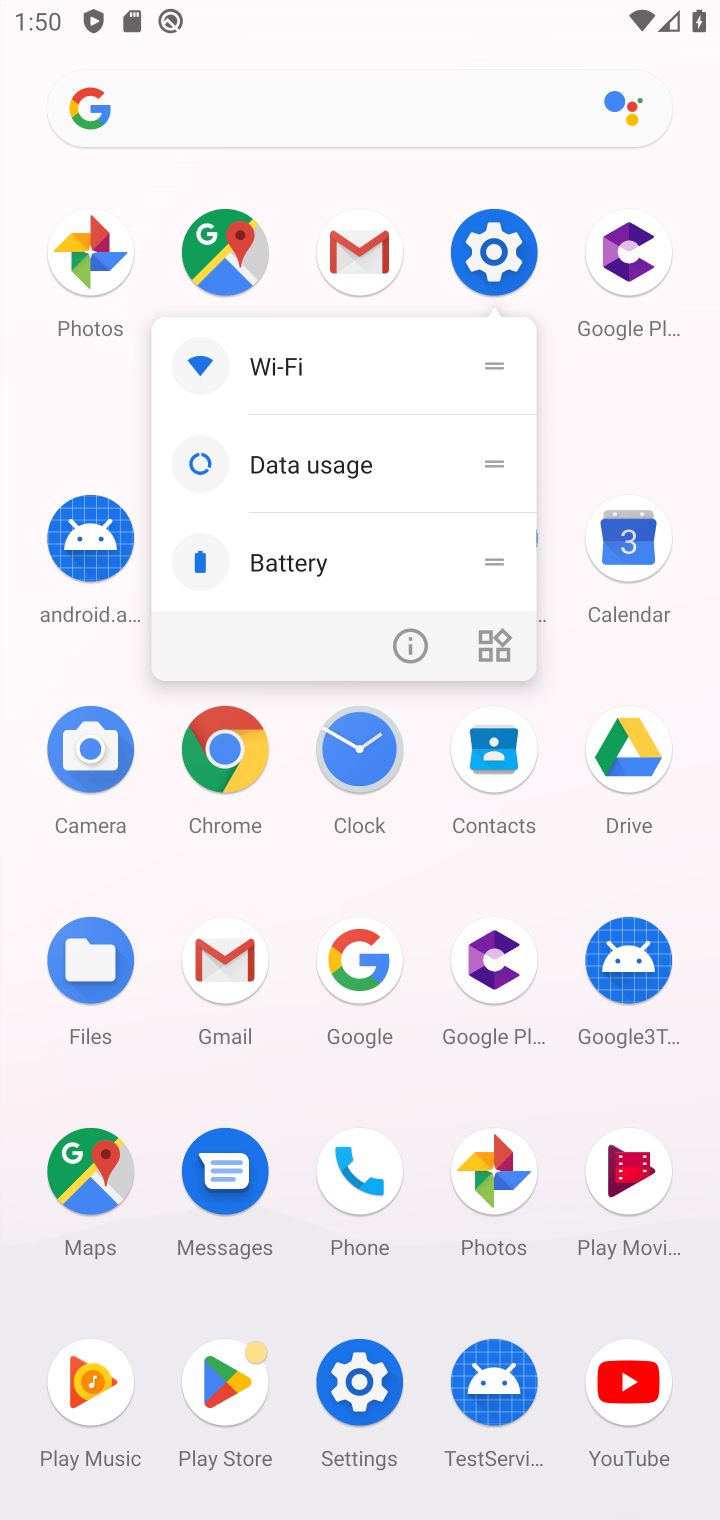
Step 29: click (498, 248)
Your task to perform on an android device: turn notification dots on Image 30: 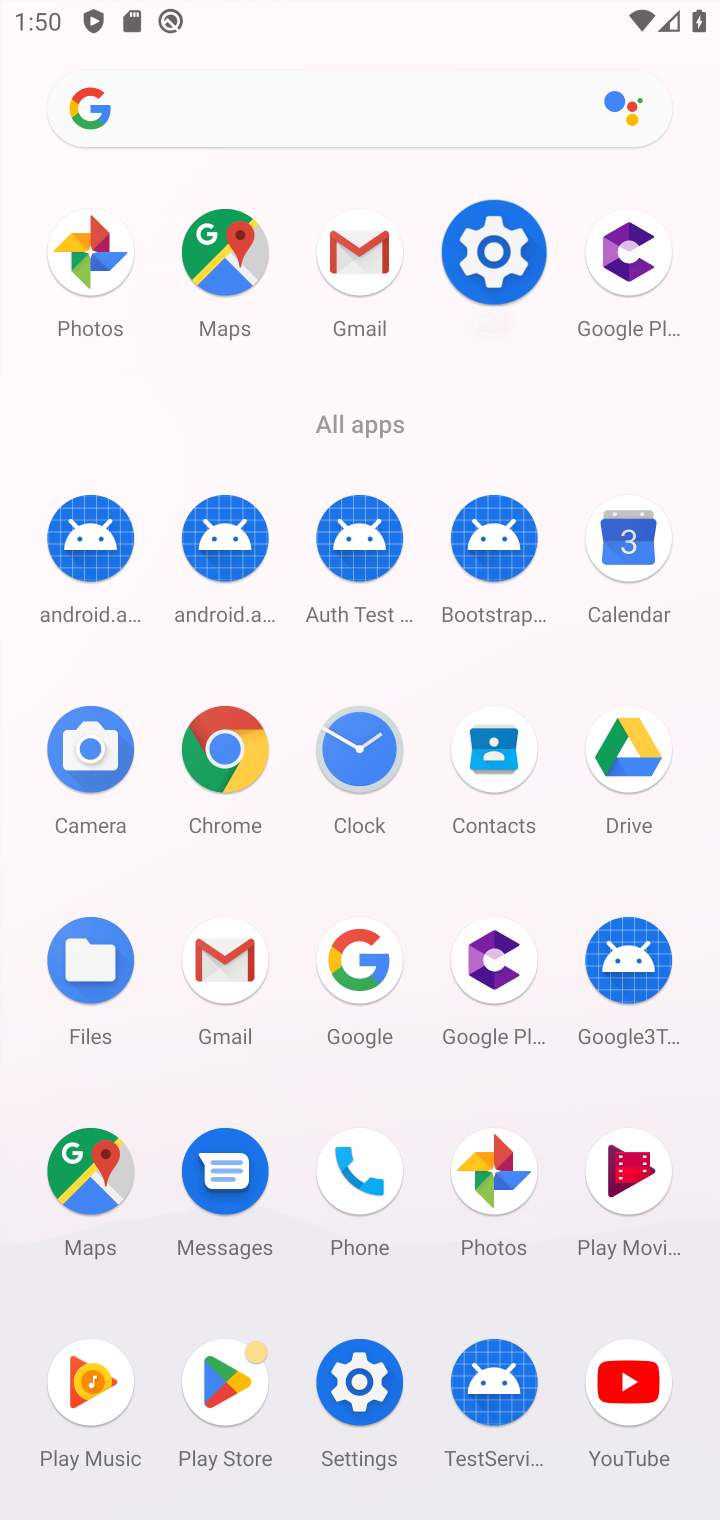
Step 30: click (498, 248)
Your task to perform on an android device: turn notification dots on Image 31: 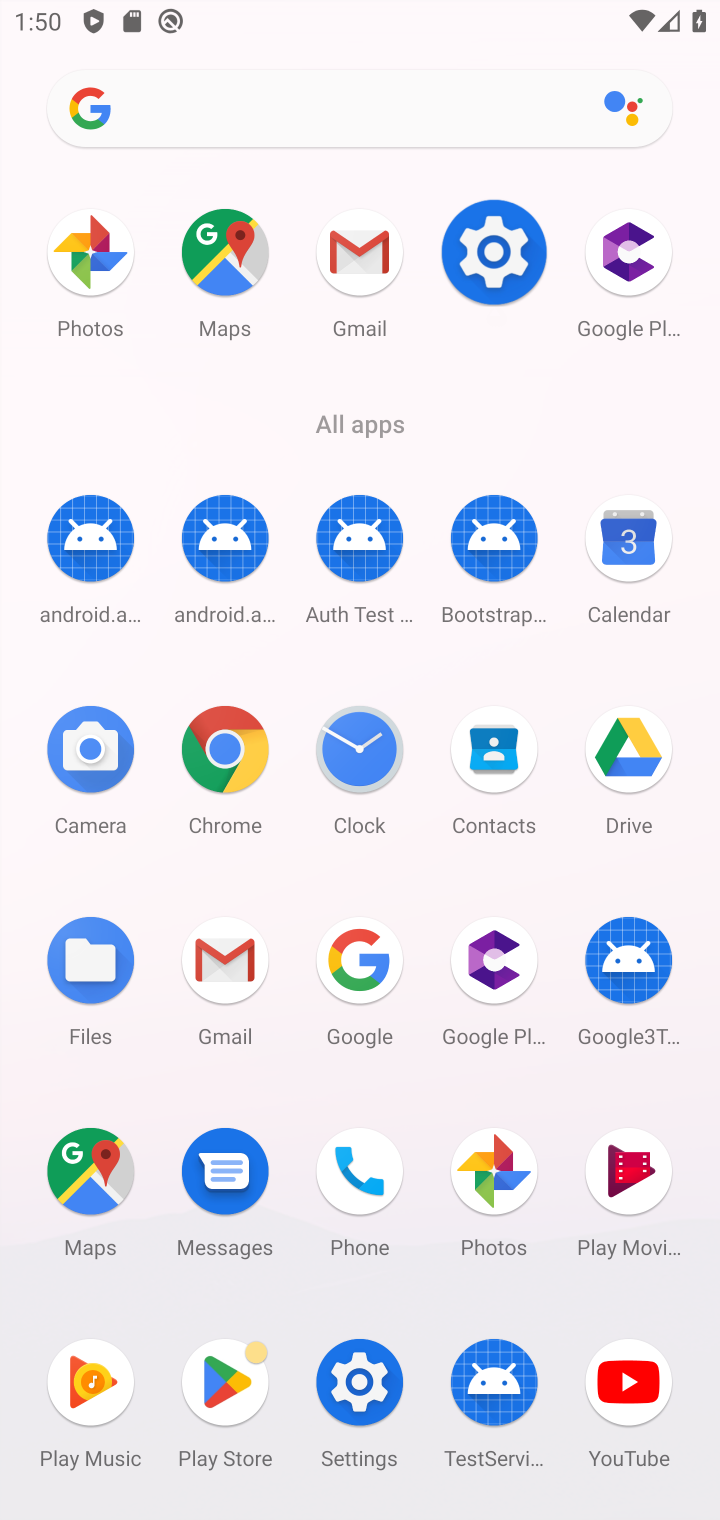
Step 31: click (498, 246)
Your task to perform on an android device: turn notification dots on Image 32: 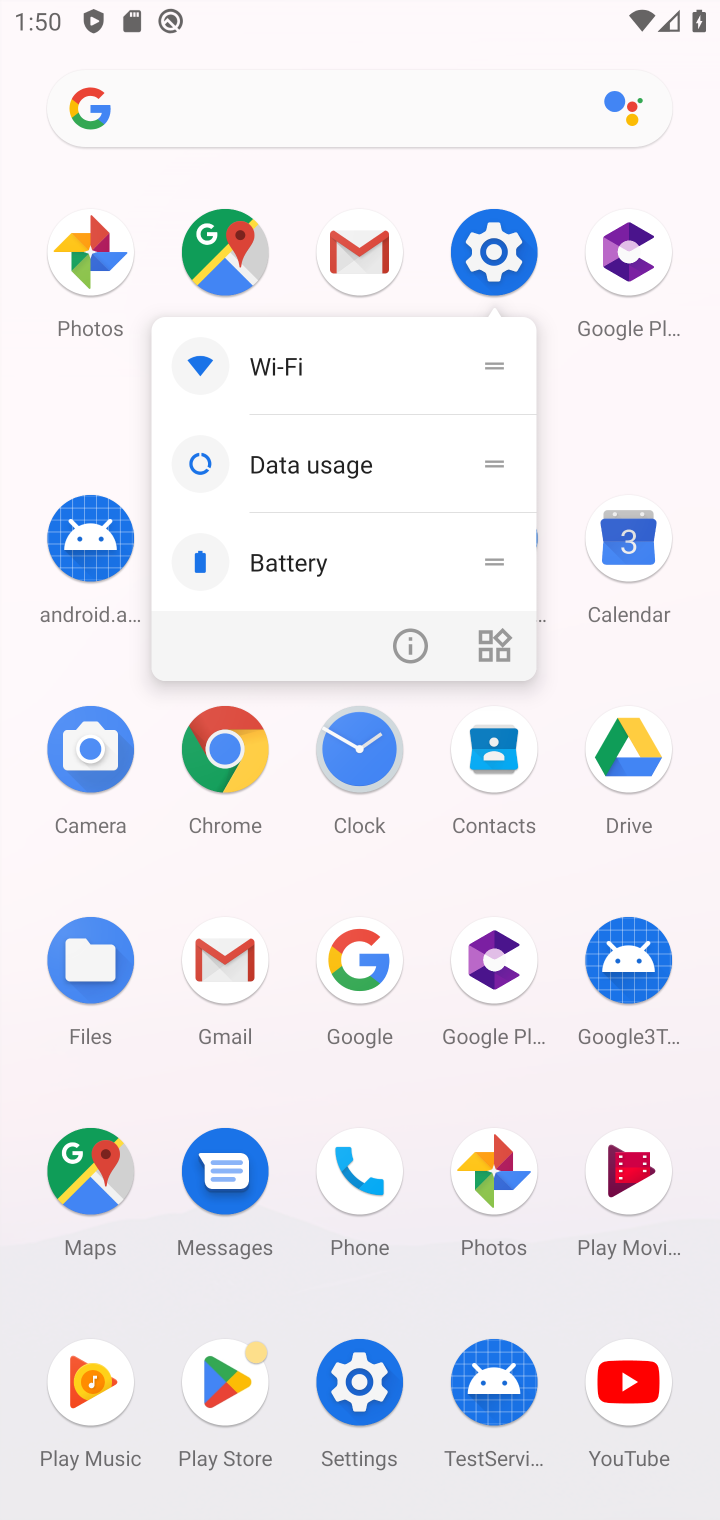
Step 32: click (494, 239)
Your task to perform on an android device: turn notification dots on Image 33: 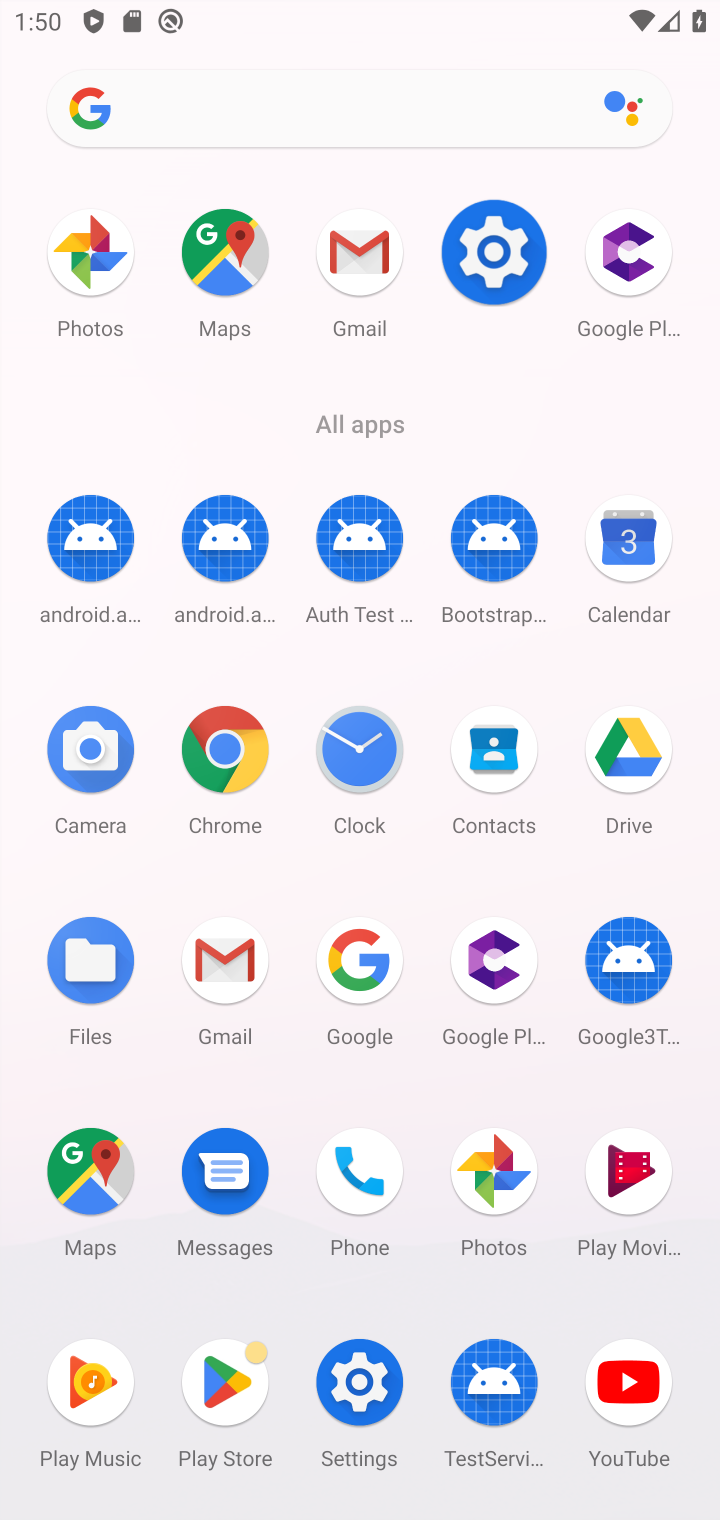
Step 33: click (502, 229)
Your task to perform on an android device: turn notification dots on Image 34: 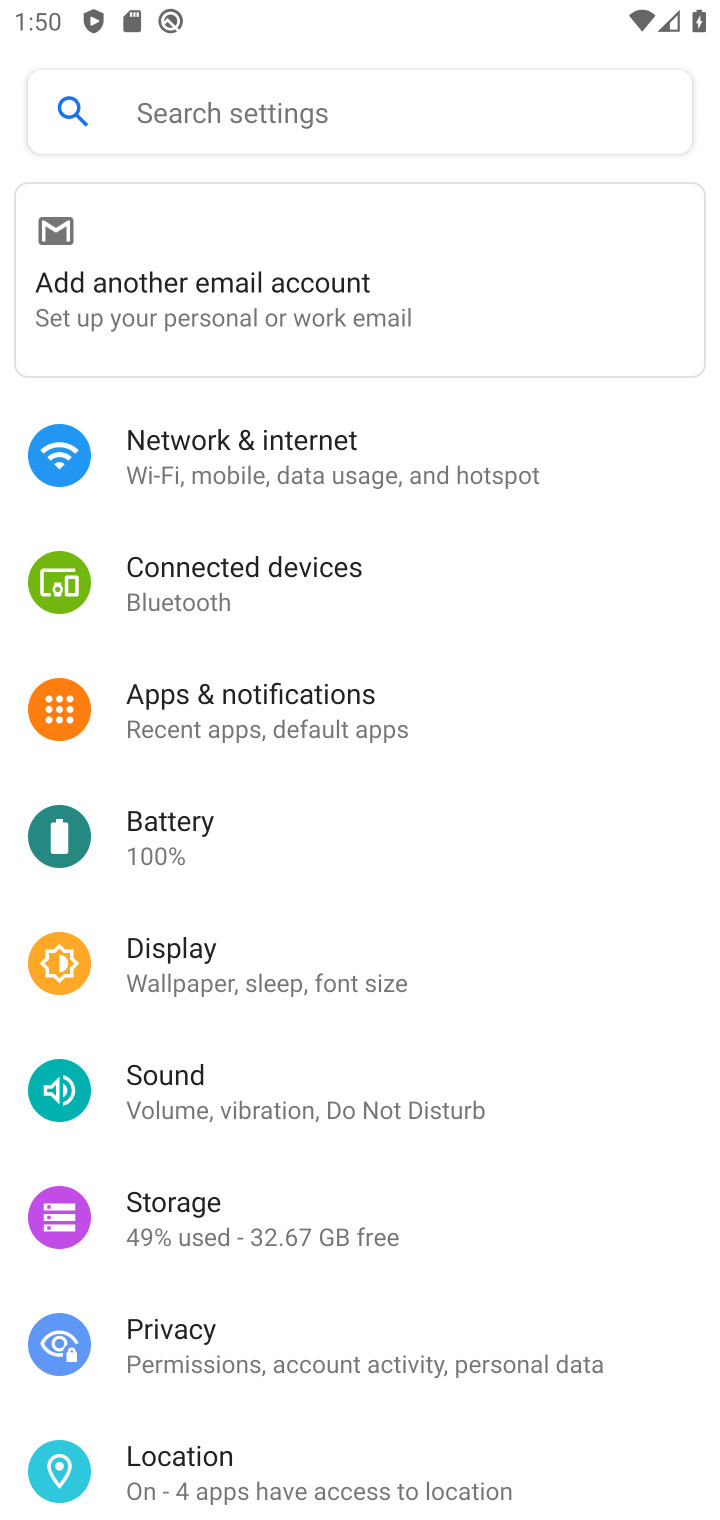
Step 34: drag from (308, 1287) to (184, 533)
Your task to perform on an android device: turn notification dots on Image 35: 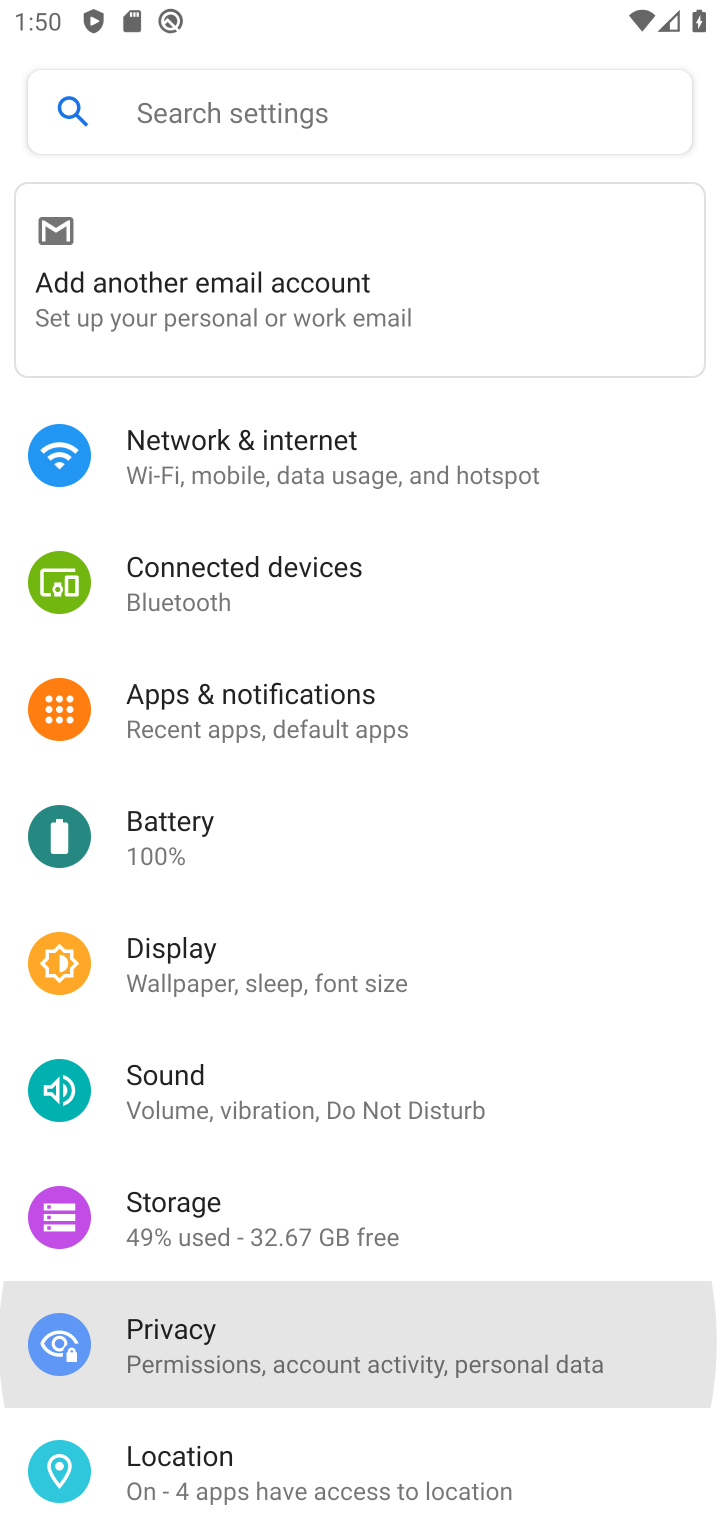
Step 35: click (112, 476)
Your task to perform on an android device: turn notification dots on Image 36: 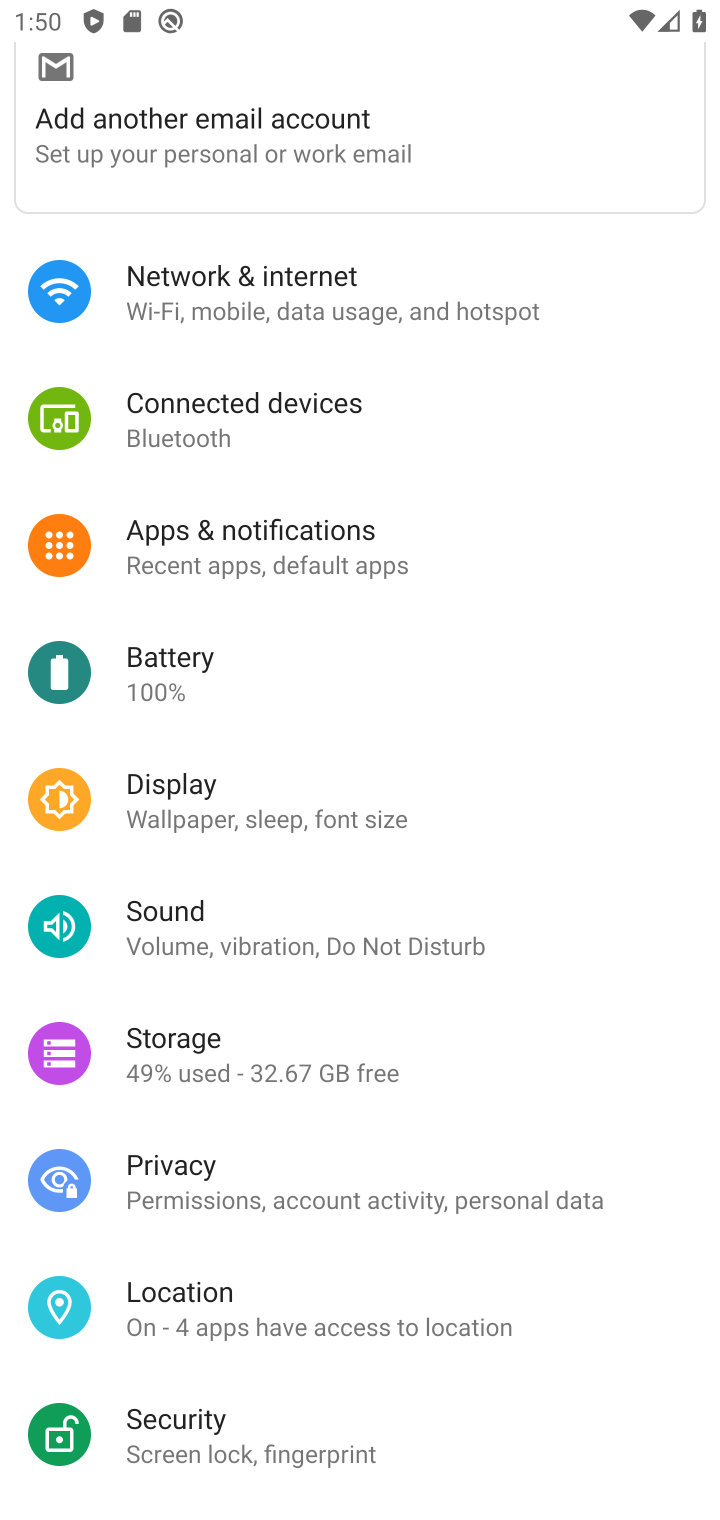
Step 36: drag from (341, 790) to (354, 477)
Your task to perform on an android device: turn notification dots on Image 37: 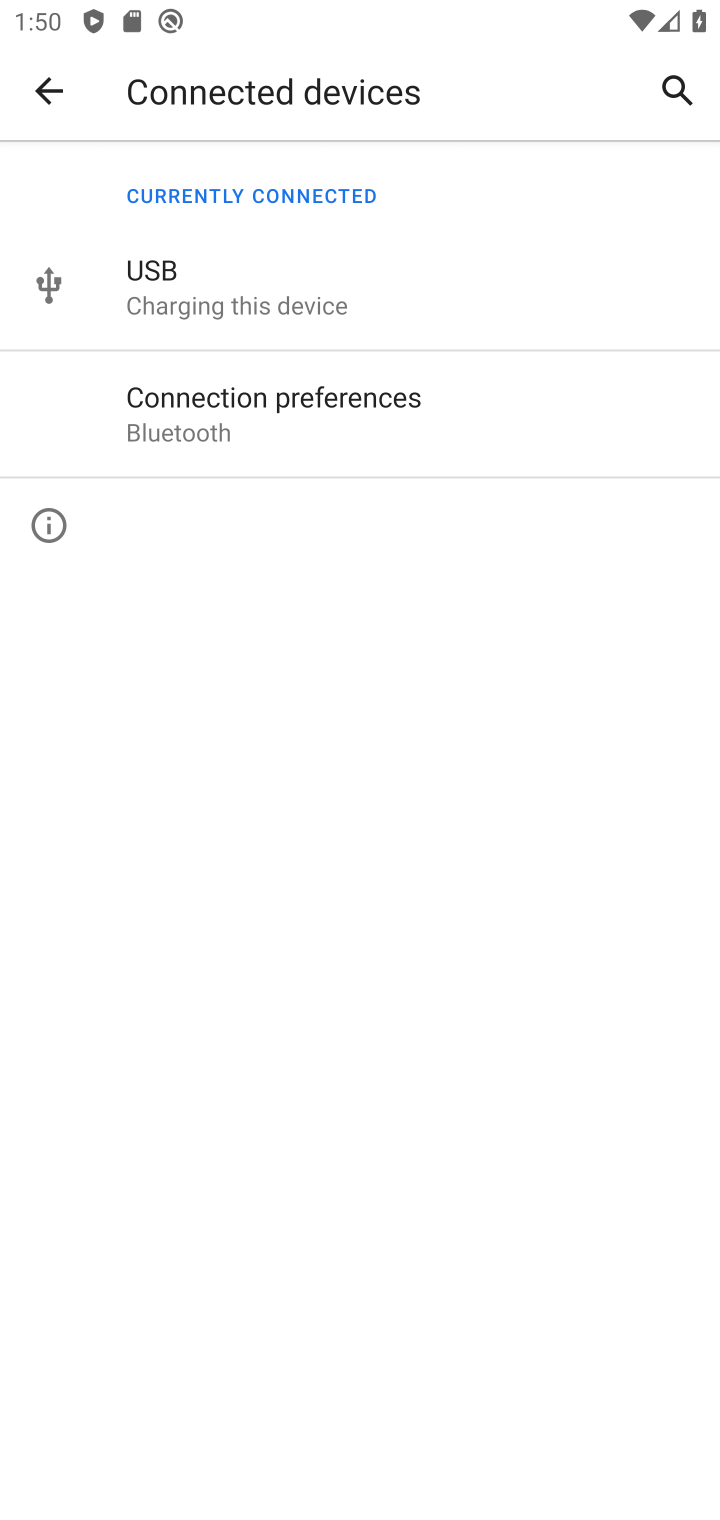
Step 37: click (32, 80)
Your task to perform on an android device: turn notification dots on Image 38: 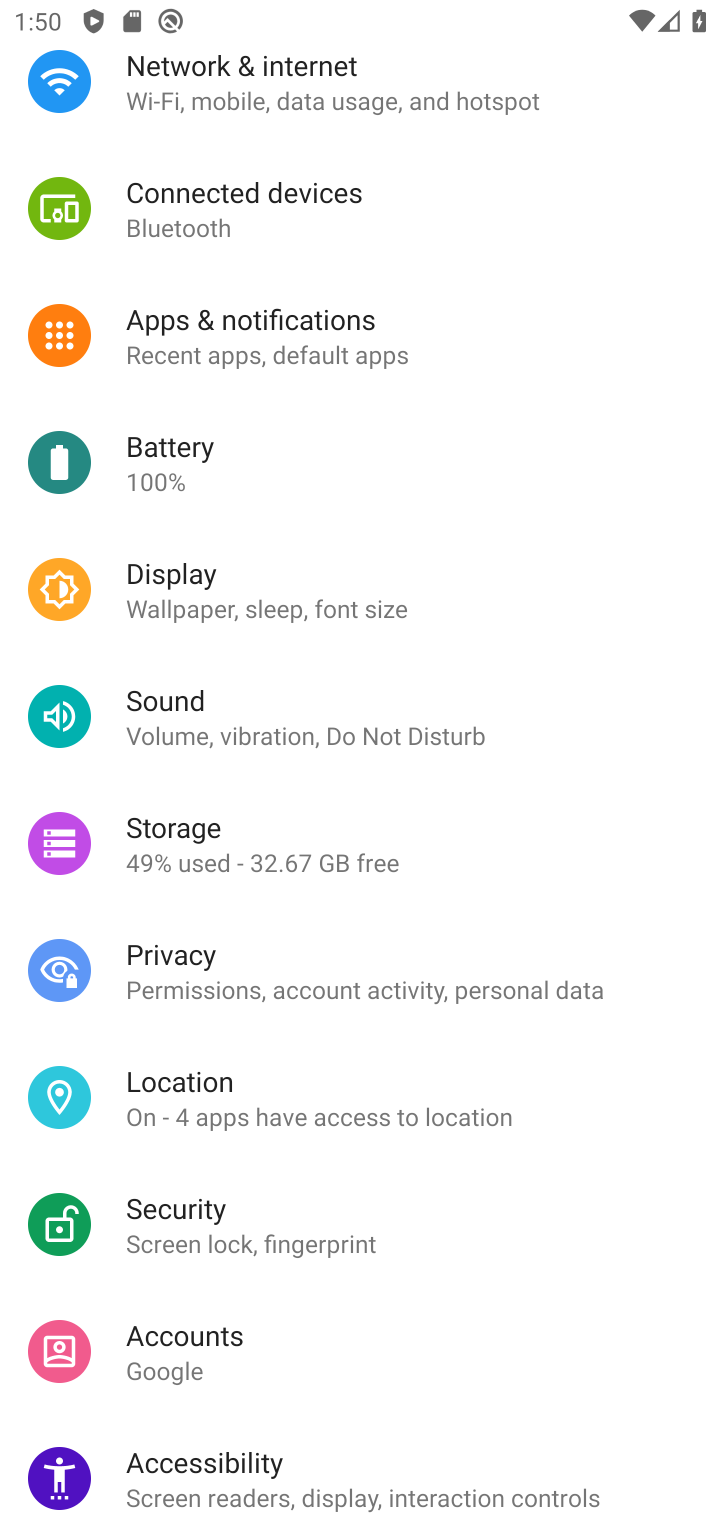
Step 38: click (272, 552)
Your task to perform on an android device: turn notification dots on Image 39: 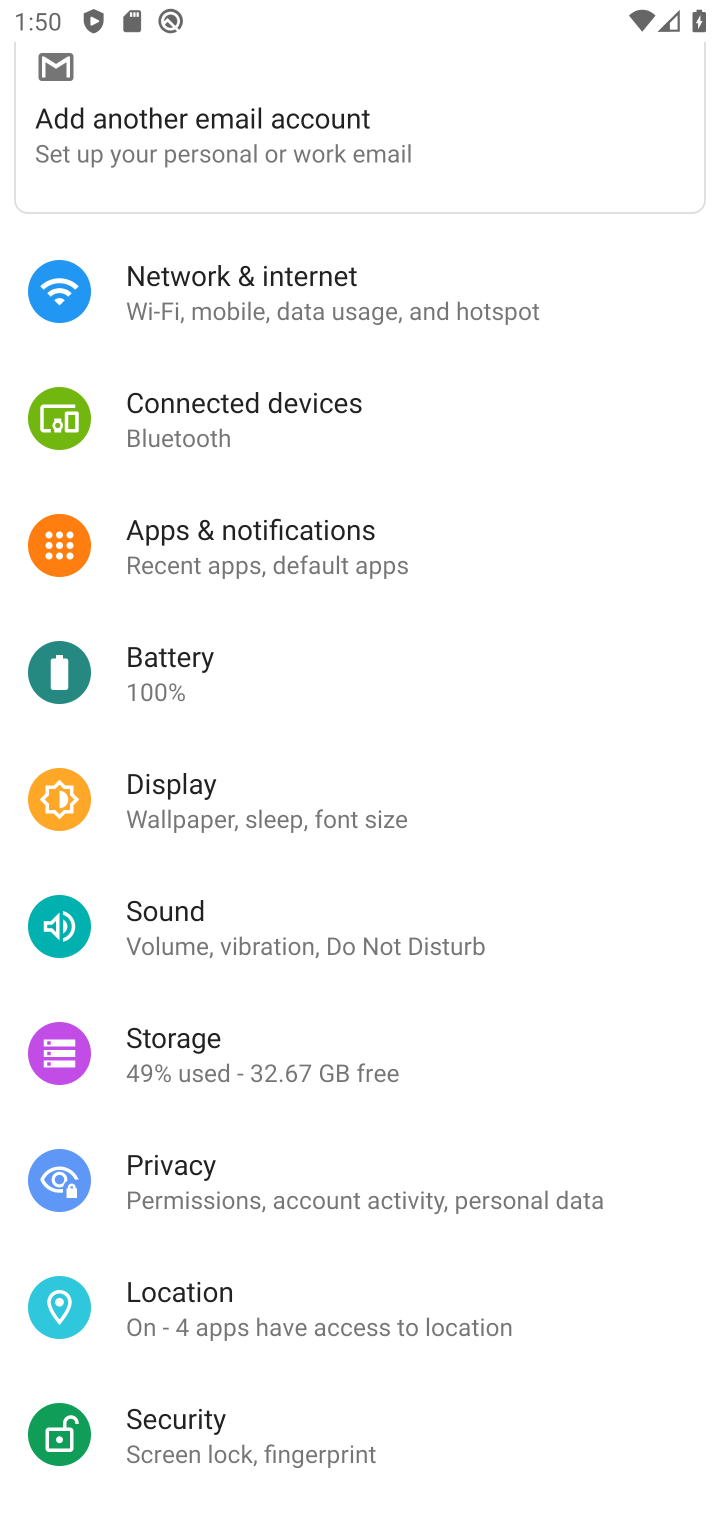
Step 39: click (181, 550)
Your task to perform on an android device: turn notification dots on Image 40: 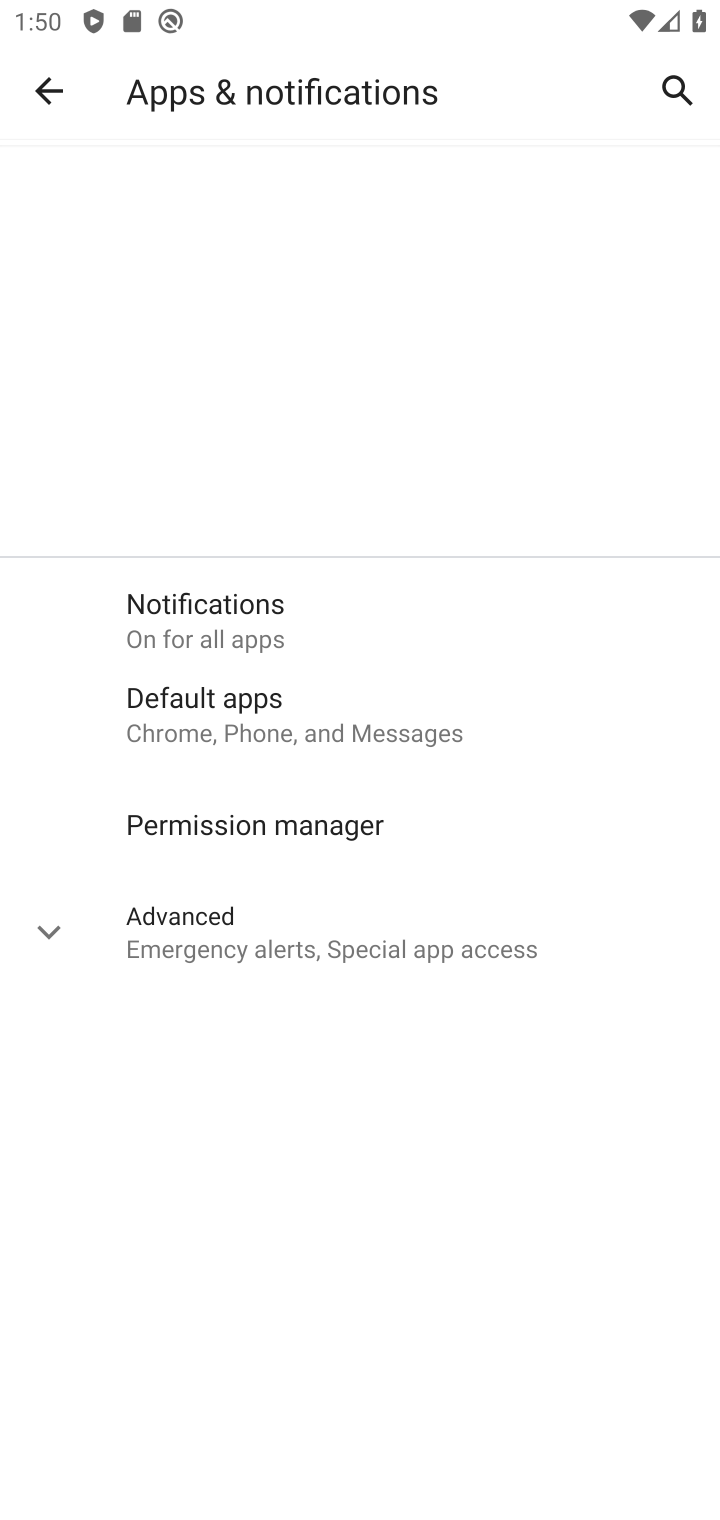
Step 40: click (266, 607)
Your task to perform on an android device: turn notification dots on Image 41: 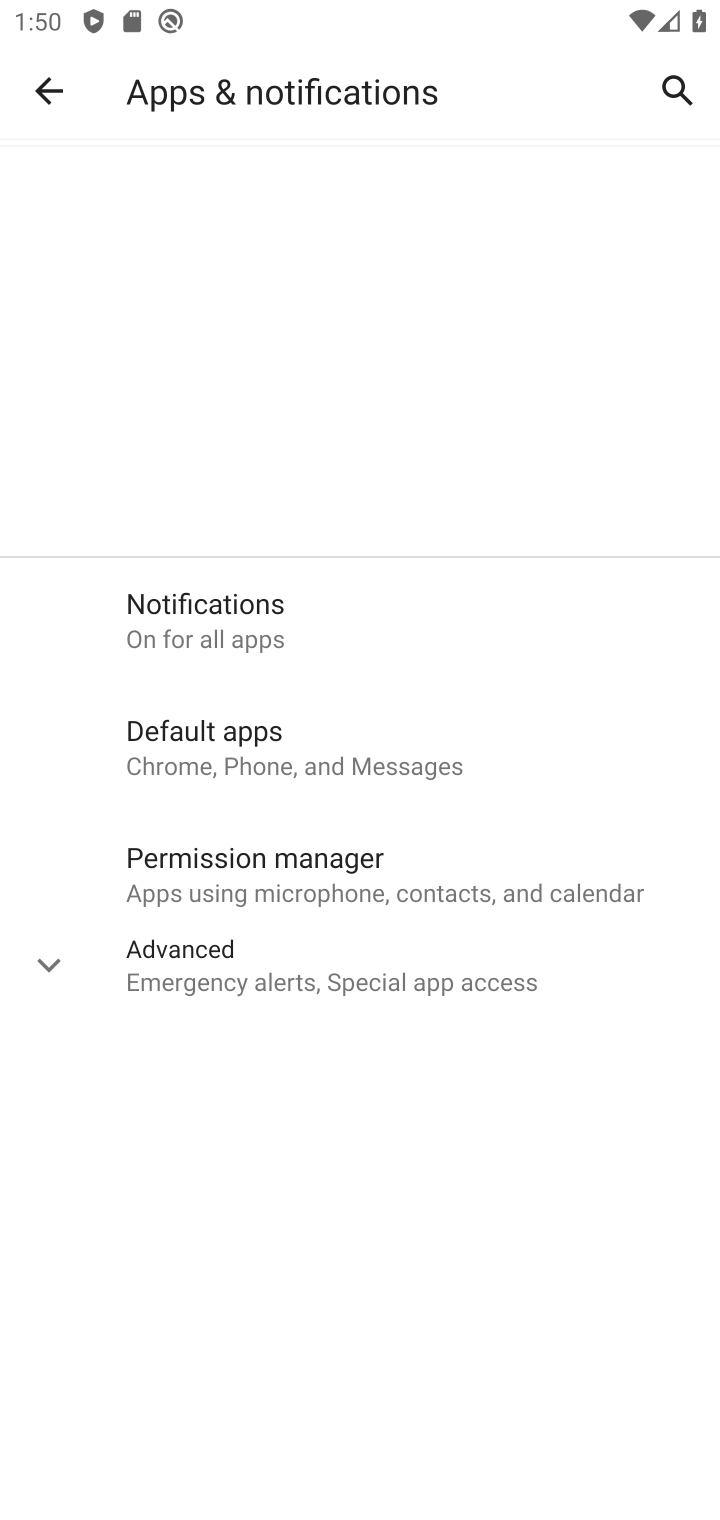
Step 41: click (217, 619)
Your task to perform on an android device: turn notification dots on Image 42: 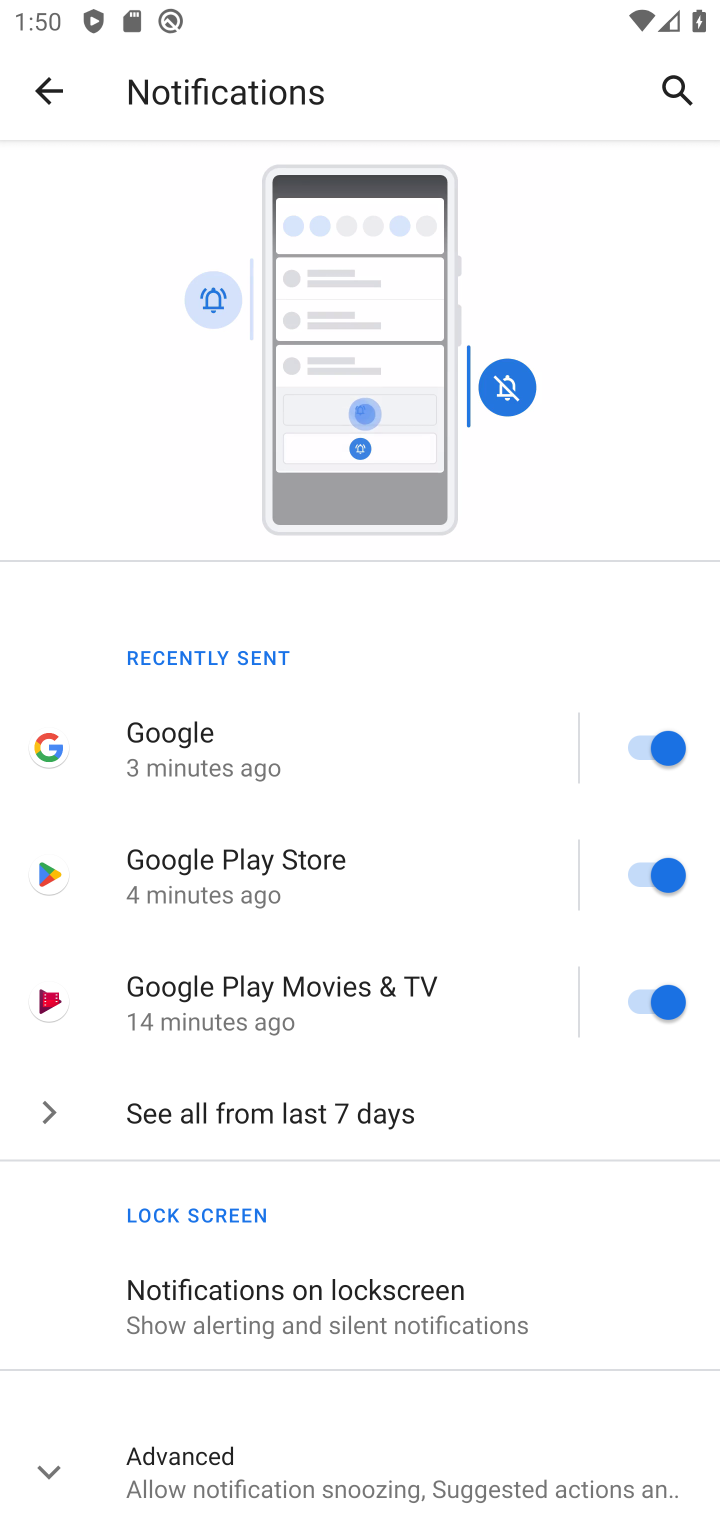
Step 42: drag from (423, 1307) to (431, 556)
Your task to perform on an android device: turn notification dots on Image 43: 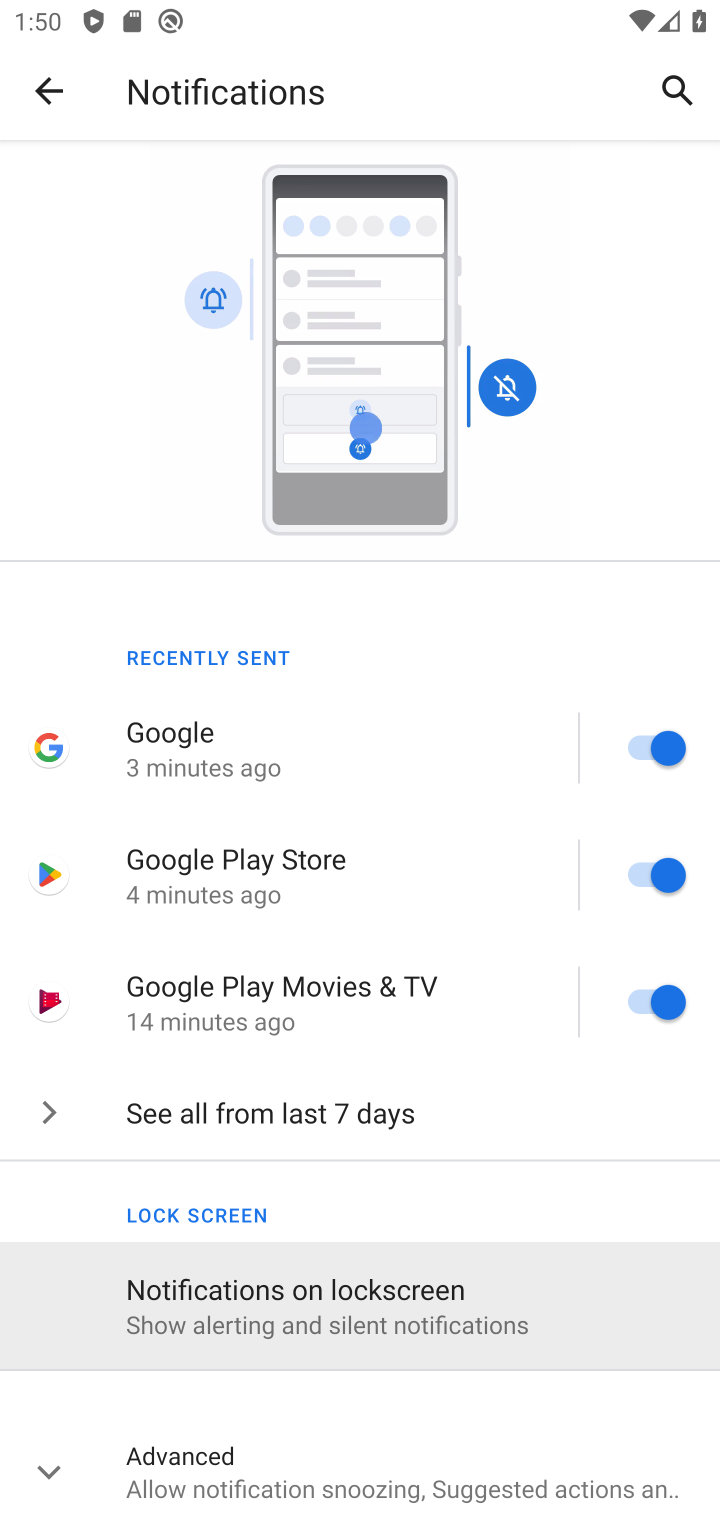
Step 43: drag from (457, 1106) to (470, 312)
Your task to perform on an android device: turn notification dots on Image 44: 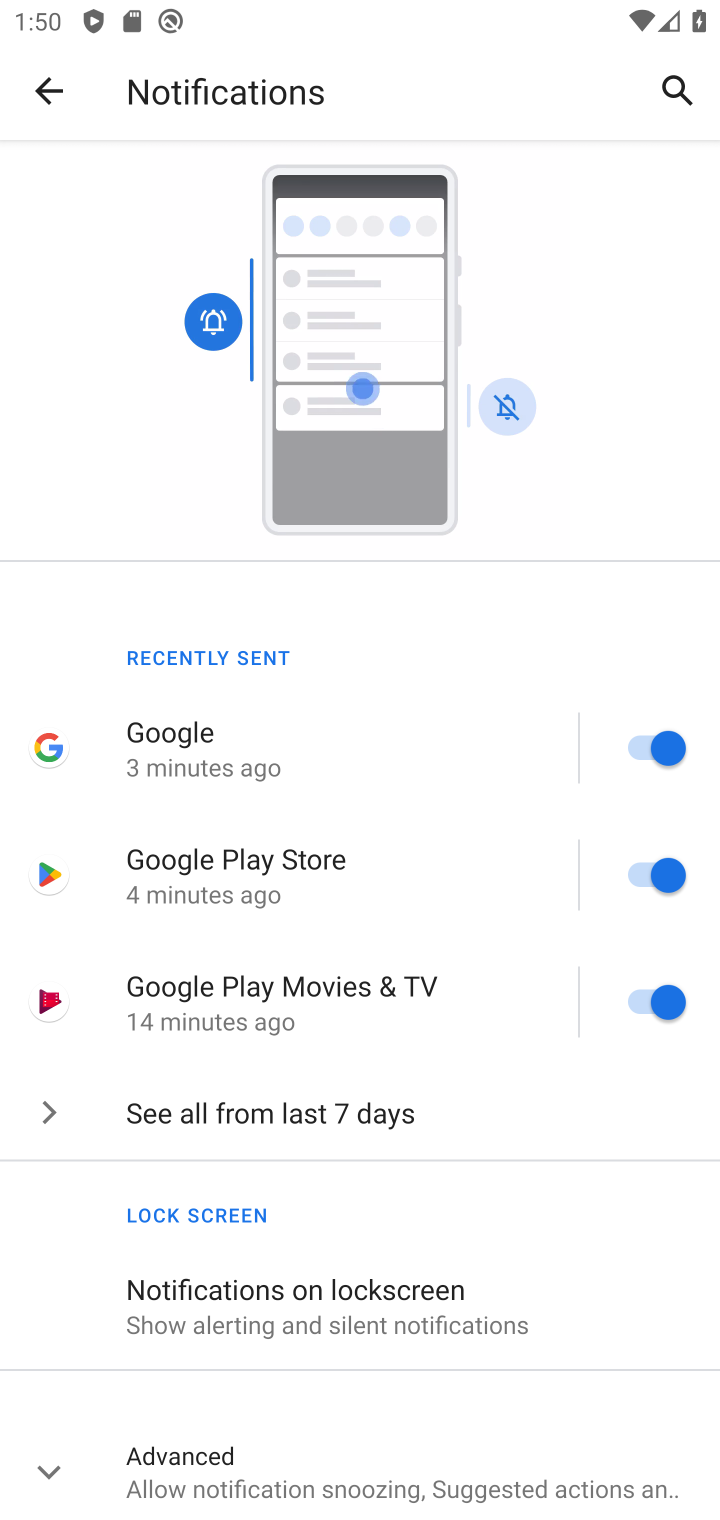
Step 44: drag from (313, 1124) to (205, 553)
Your task to perform on an android device: turn notification dots on Image 45: 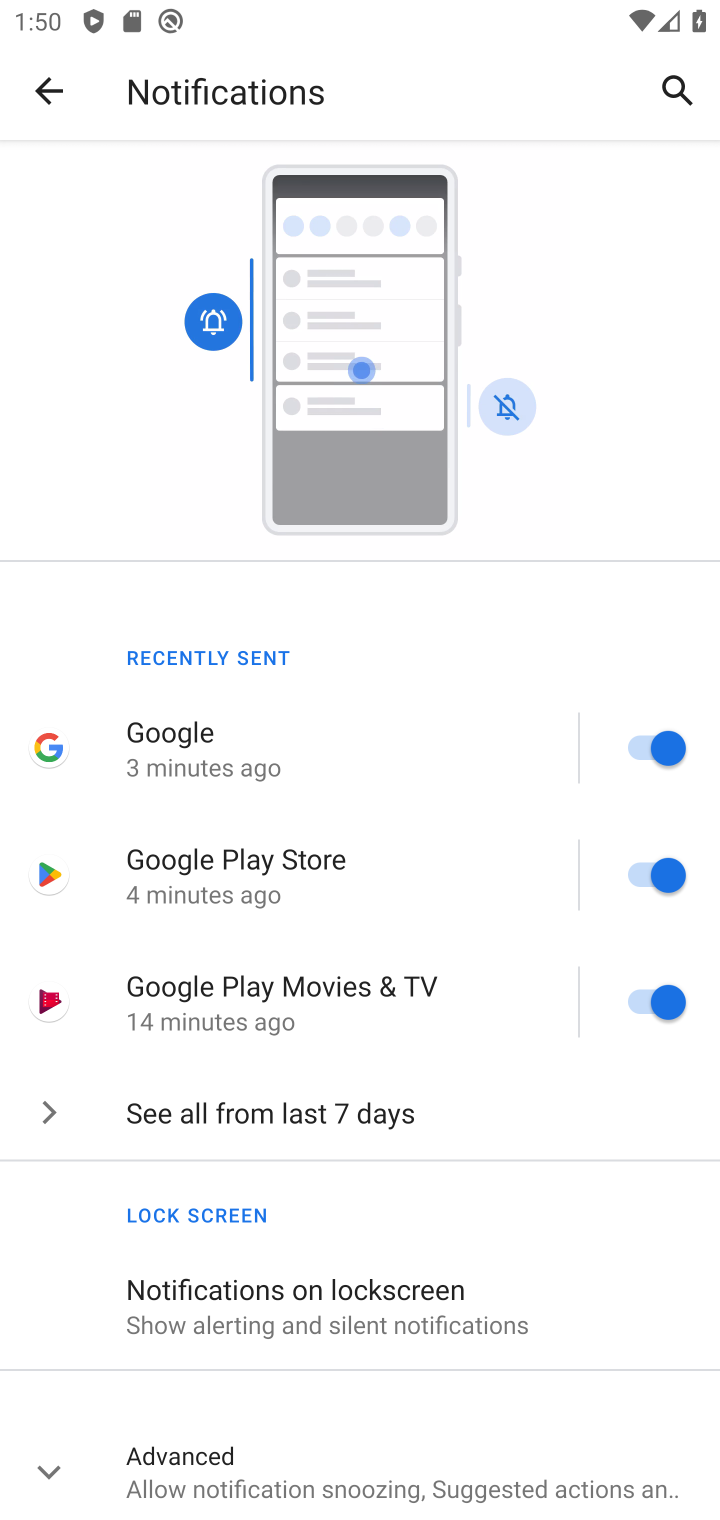
Step 45: drag from (307, 1175) to (243, 610)
Your task to perform on an android device: turn notification dots on Image 46: 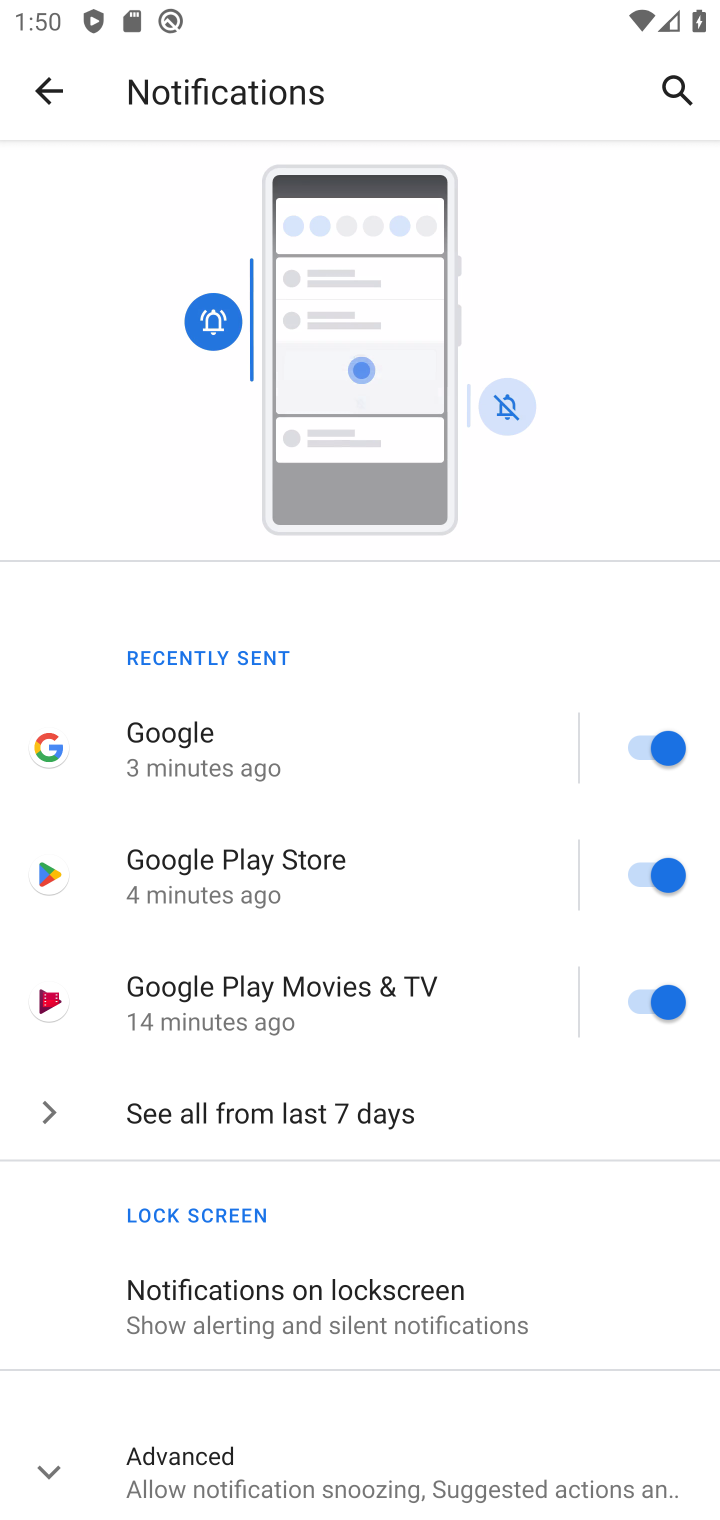
Step 46: drag from (343, 825) to (274, 531)
Your task to perform on an android device: turn notification dots on Image 47: 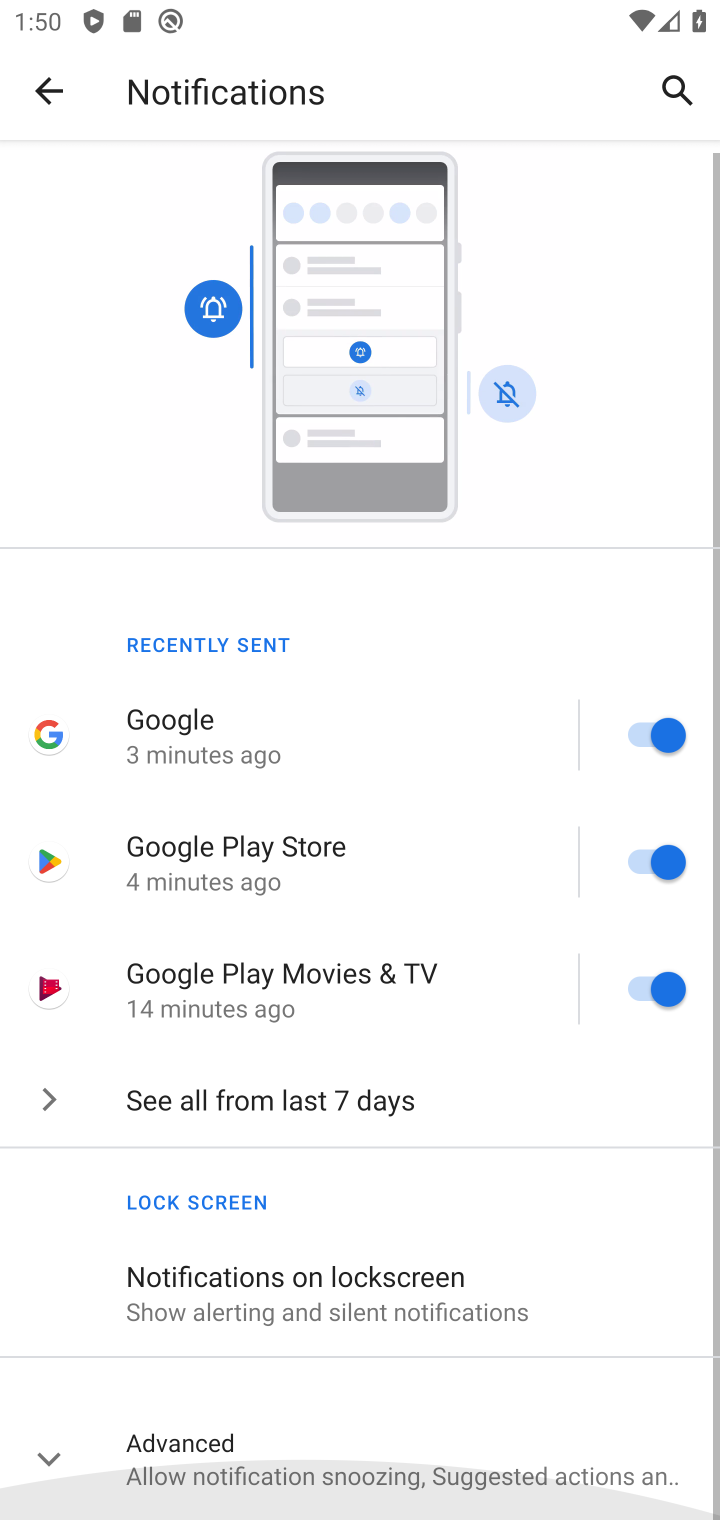
Step 47: click (270, 584)
Your task to perform on an android device: turn notification dots on Image 48: 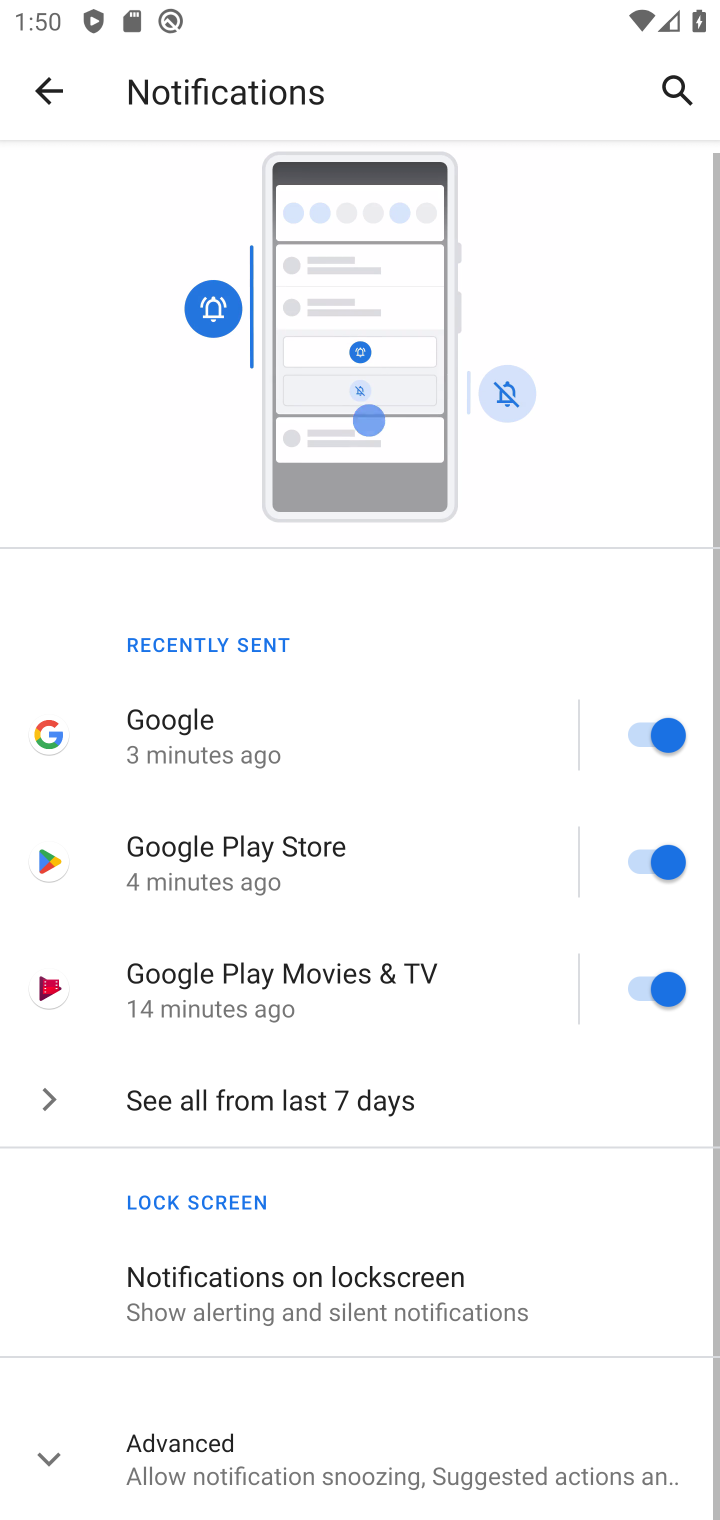
Step 48: drag from (362, 1245) to (262, 572)
Your task to perform on an android device: turn notification dots on Image 49: 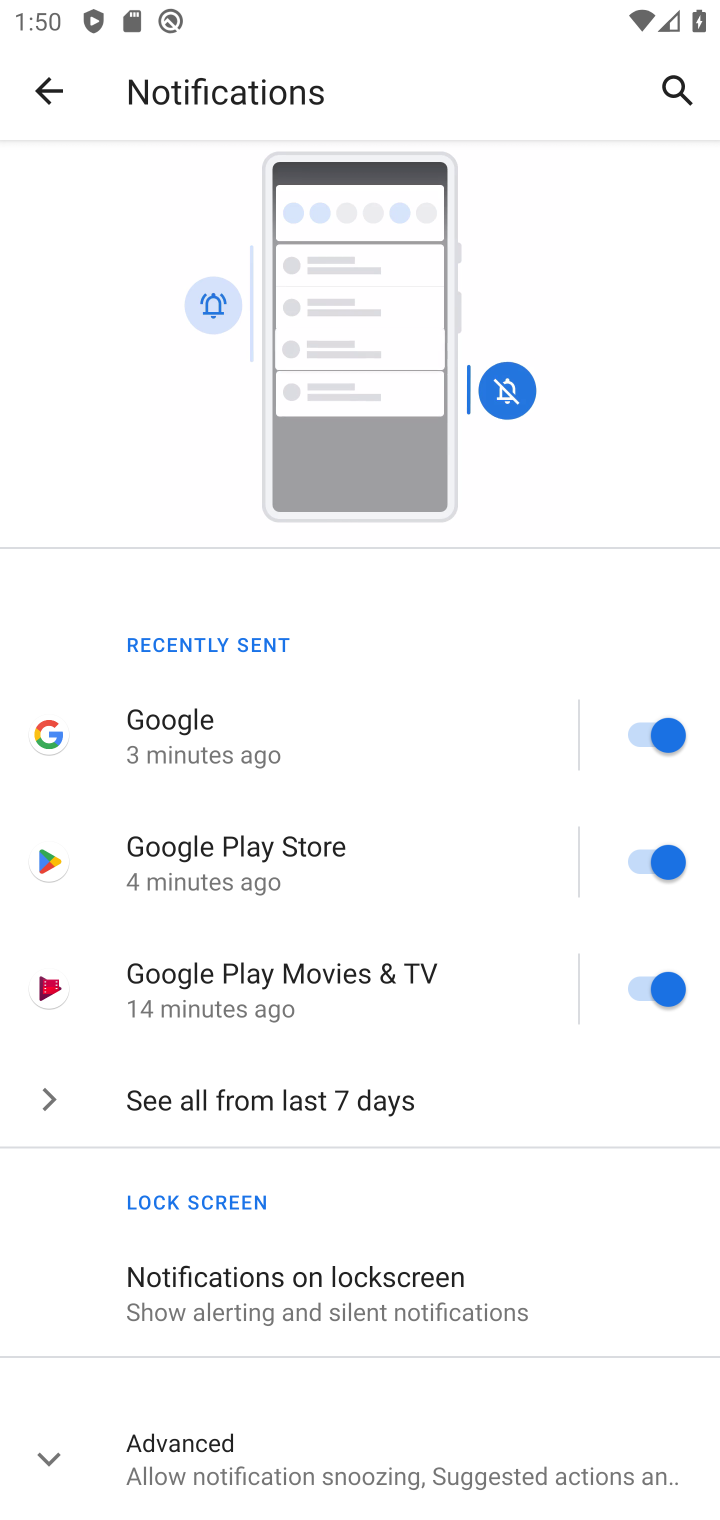
Step 49: click (199, 1455)
Your task to perform on an android device: turn notification dots on Image 50: 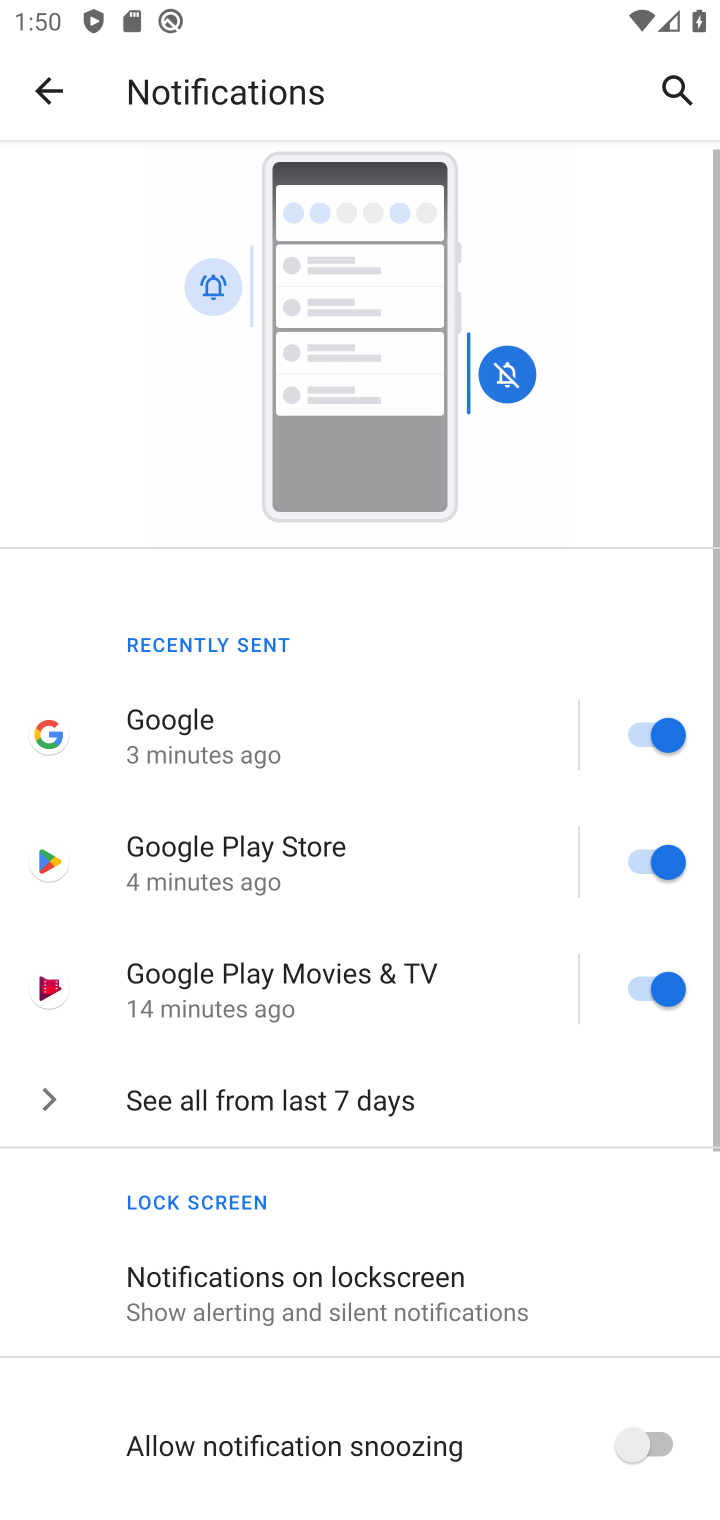
Step 50: task complete